Your task to perform on an android device: Clear the shopping cart on target.com. Search for usb-c to usb-b on target.com, select the first entry, add it to the cart, then select checkout. Image 0: 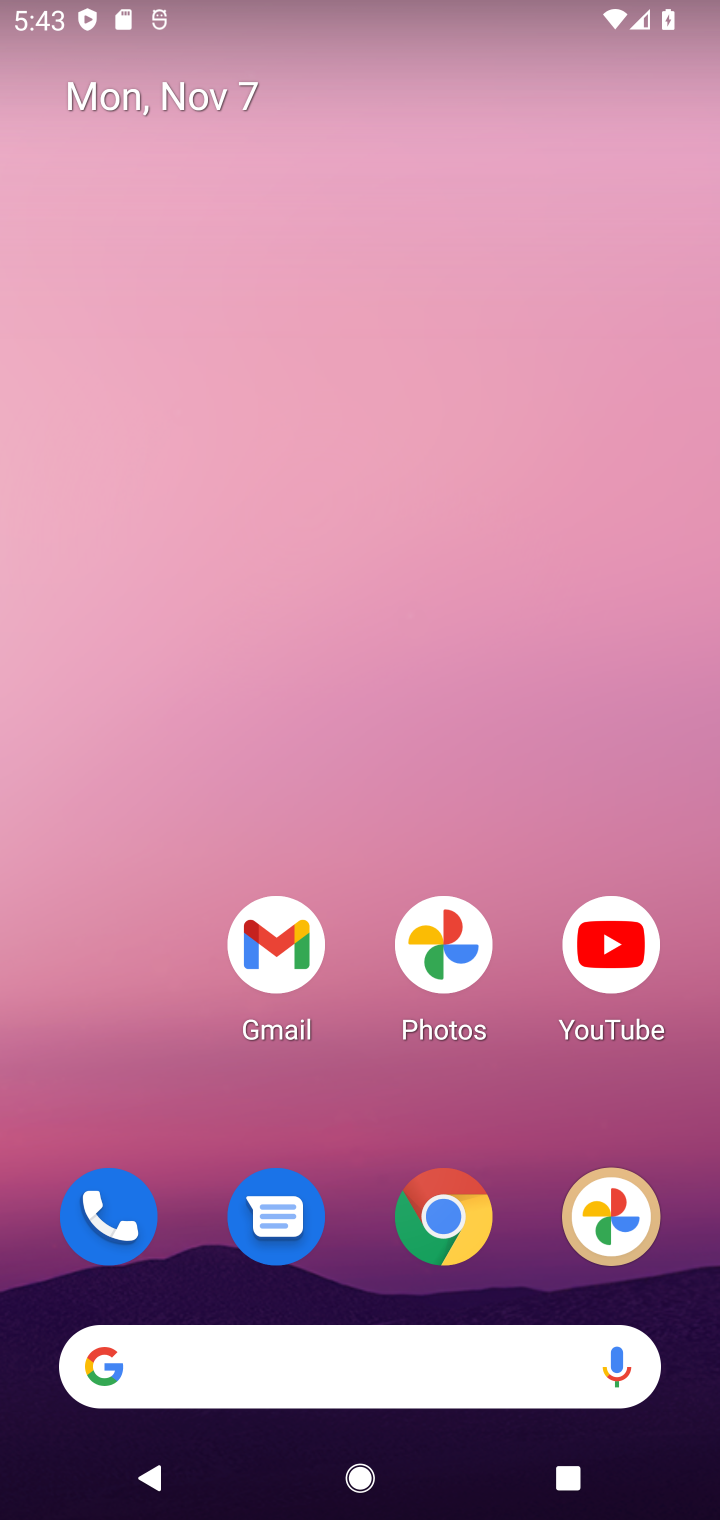
Step 0: drag from (345, 826) to (326, 28)
Your task to perform on an android device: Clear the shopping cart on target.com. Search for usb-c to usb-b on target.com, select the first entry, add it to the cart, then select checkout. Image 1: 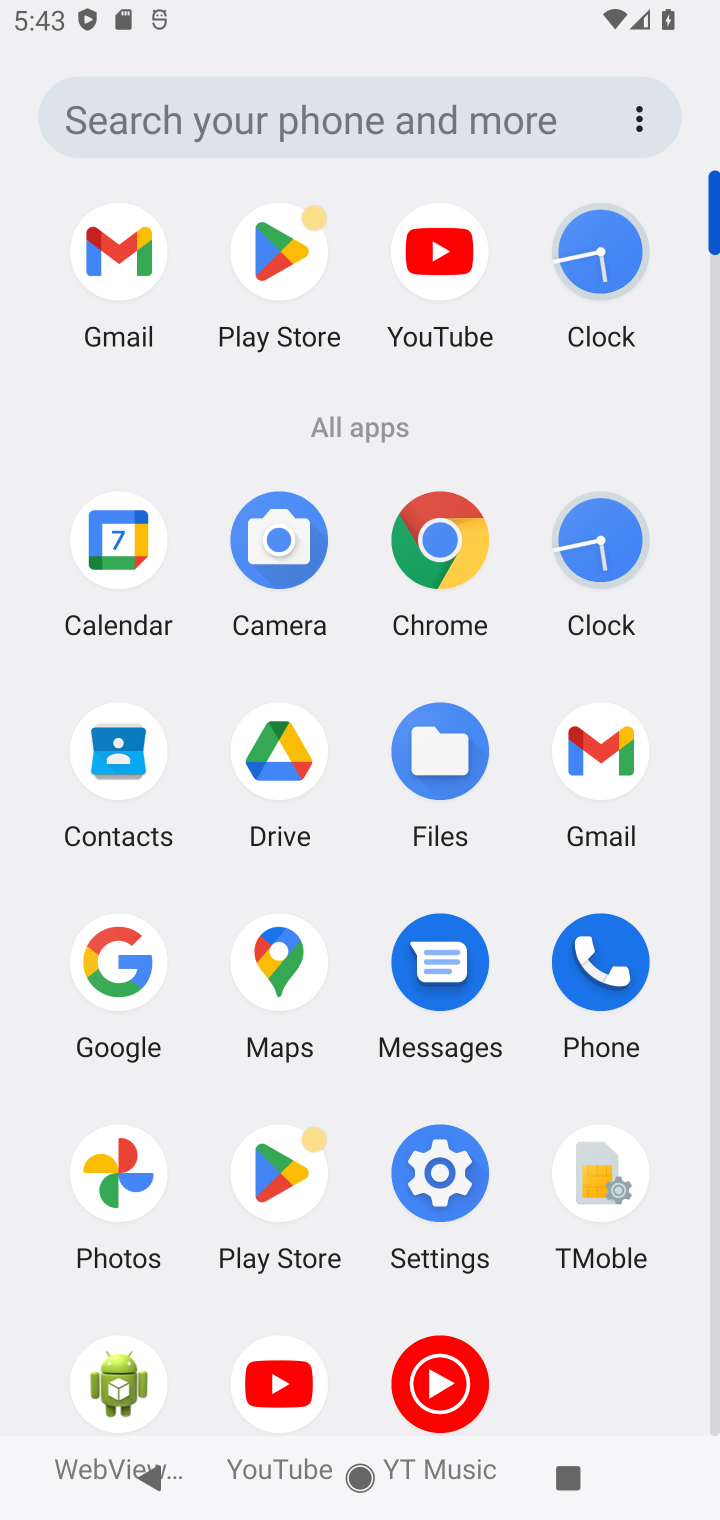
Step 1: click (439, 536)
Your task to perform on an android device: Clear the shopping cart on target.com. Search for usb-c to usb-b on target.com, select the first entry, add it to the cart, then select checkout. Image 2: 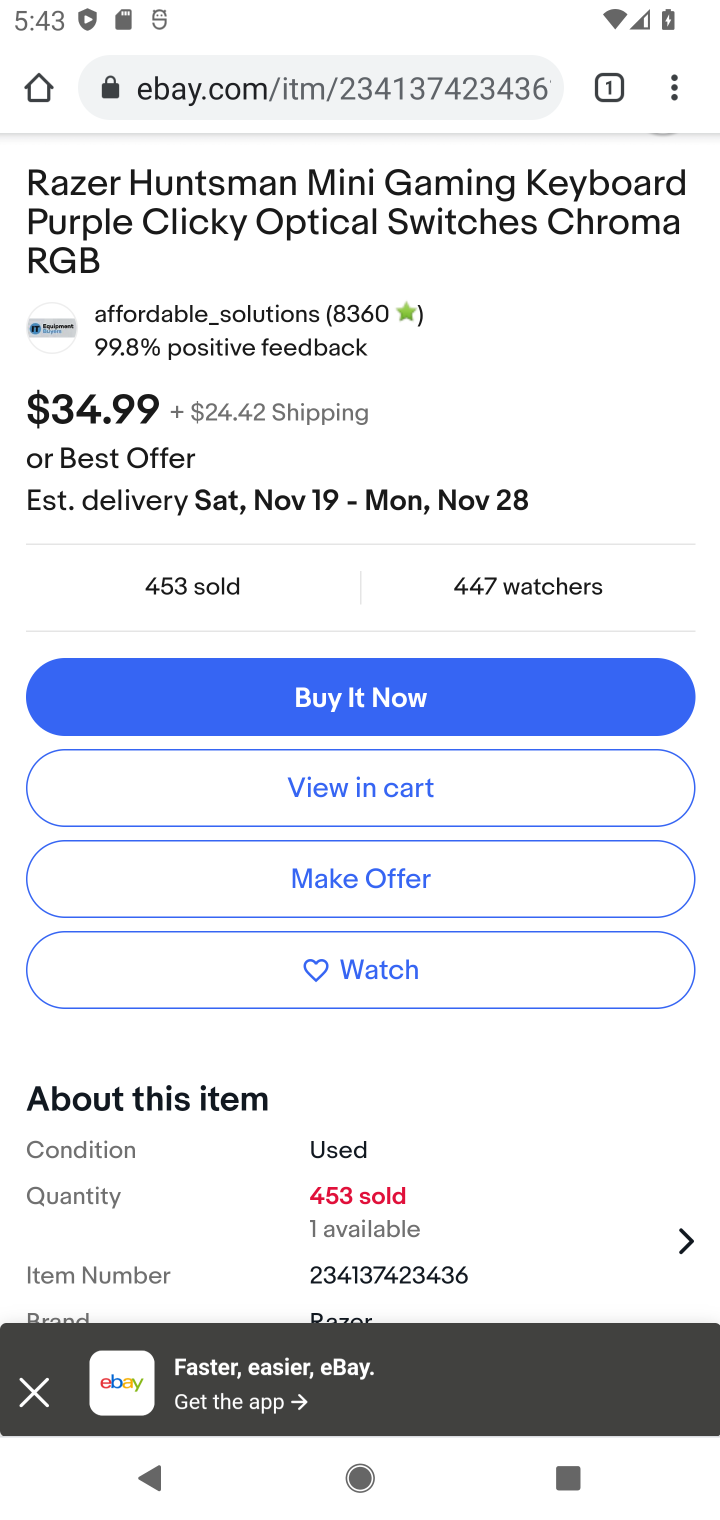
Step 2: click (358, 74)
Your task to perform on an android device: Clear the shopping cart on target.com. Search for usb-c to usb-b on target.com, select the first entry, add it to the cart, then select checkout. Image 3: 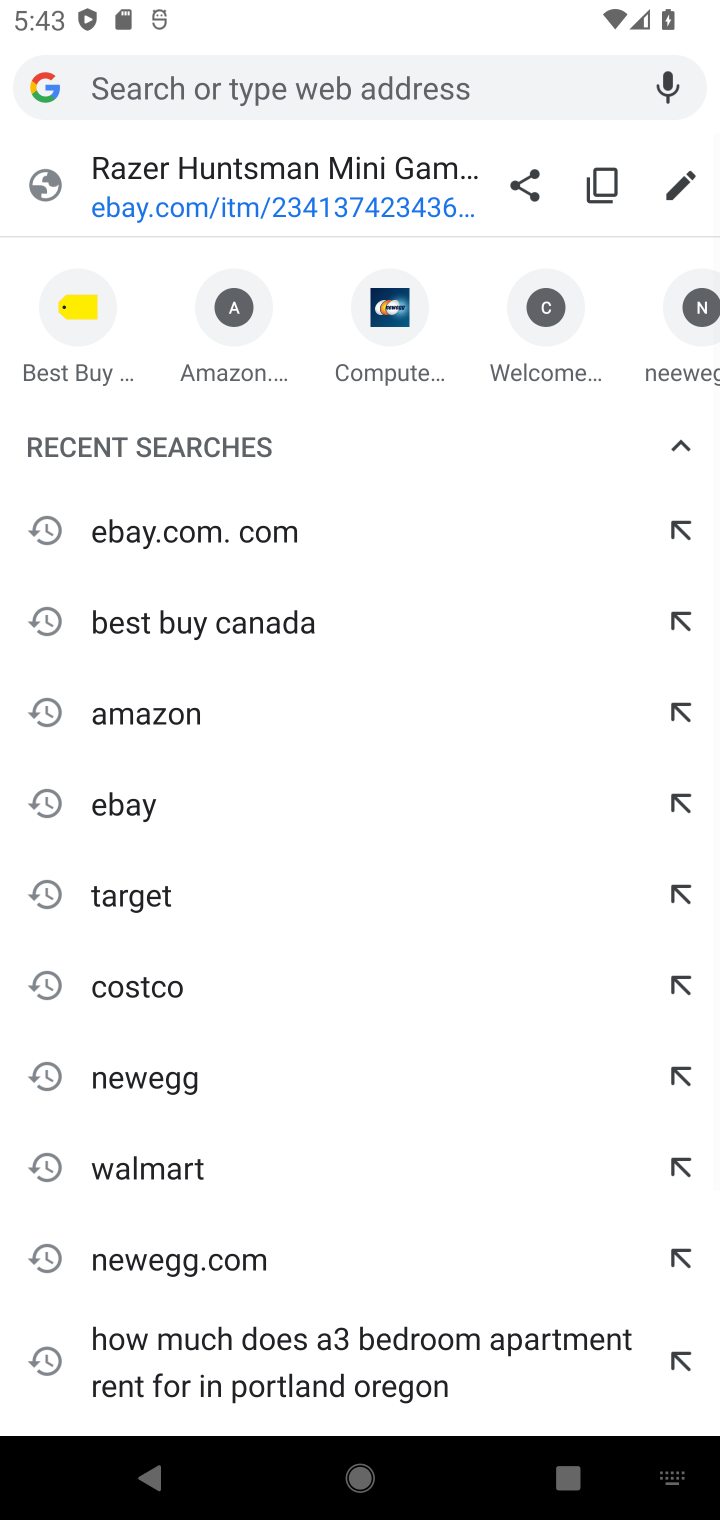
Step 3: type "target.com"
Your task to perform on an android device: Clear the shopping cart on target.com. Search for usb-c to usb-b on target.com, select the first entry, add it to the cart, then select checkout. Image 4: 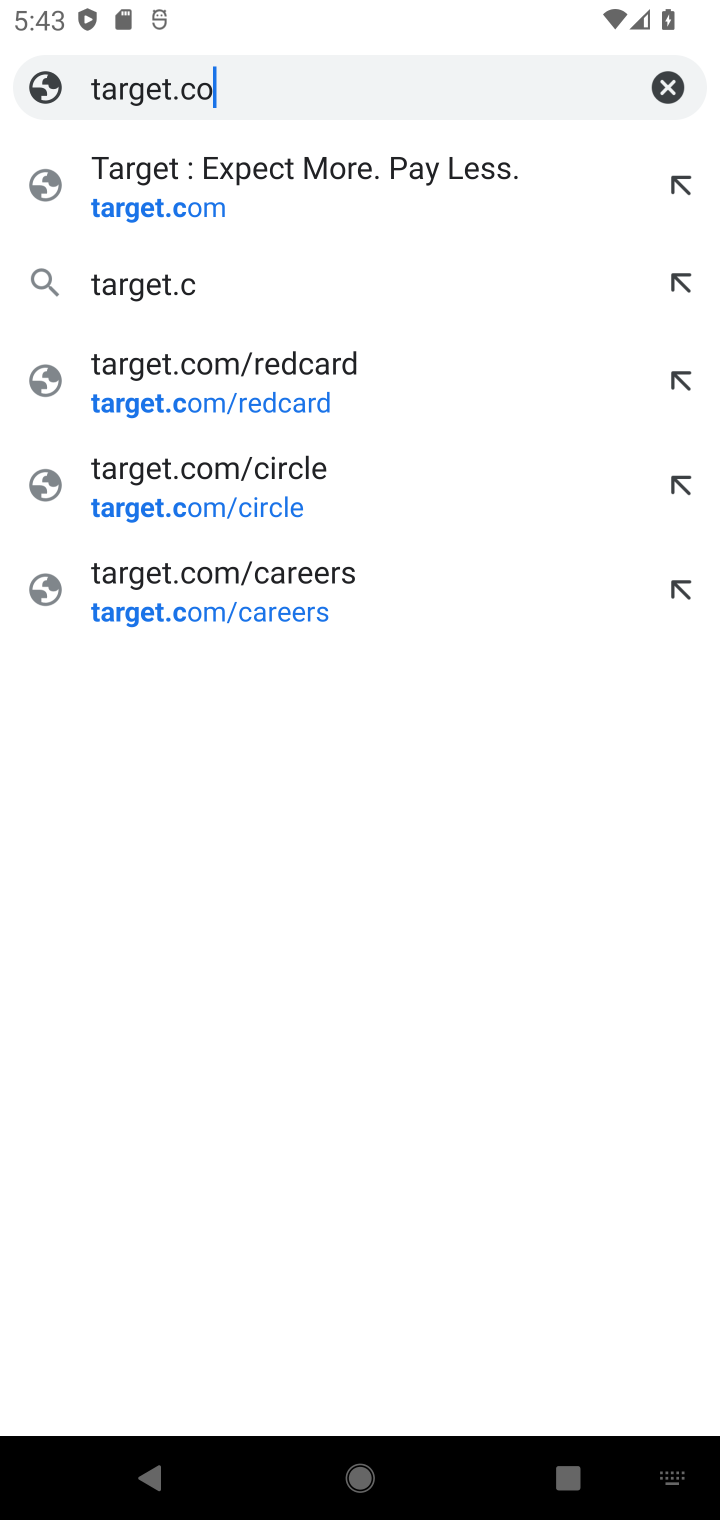
Step 4: press enter
Your task to perform on an android device: Clear the shopping cart on target.com. Search for usb-c to usb-b on target.com, select the first entry, add it to the cart, then select checkout. Image 5: 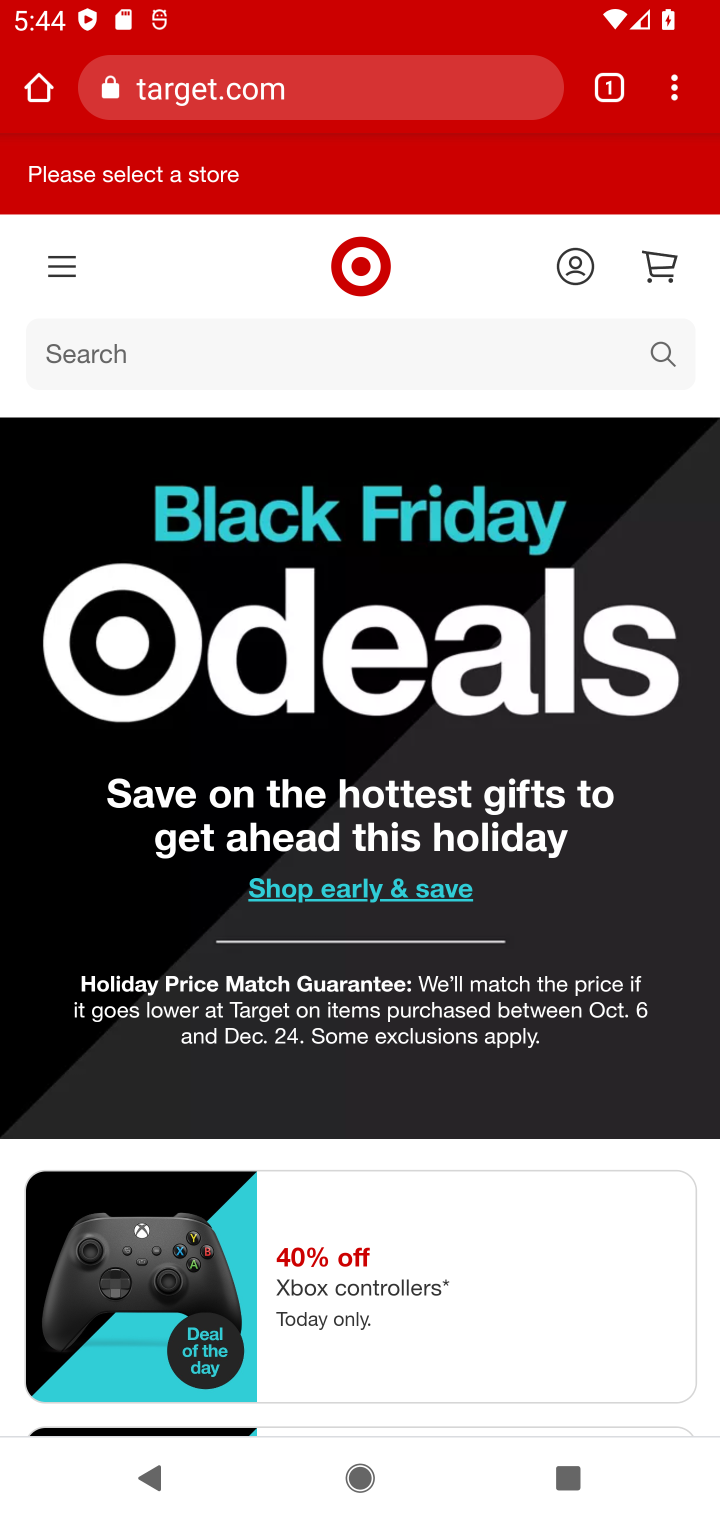
Step 5: click (213, 350)
Your task to perform on an android device: Clear the shopping cart on target.com. Search for usb-c to usb-b on target.com, select the first entry, add it to the cart, then select checkout. Image 6: 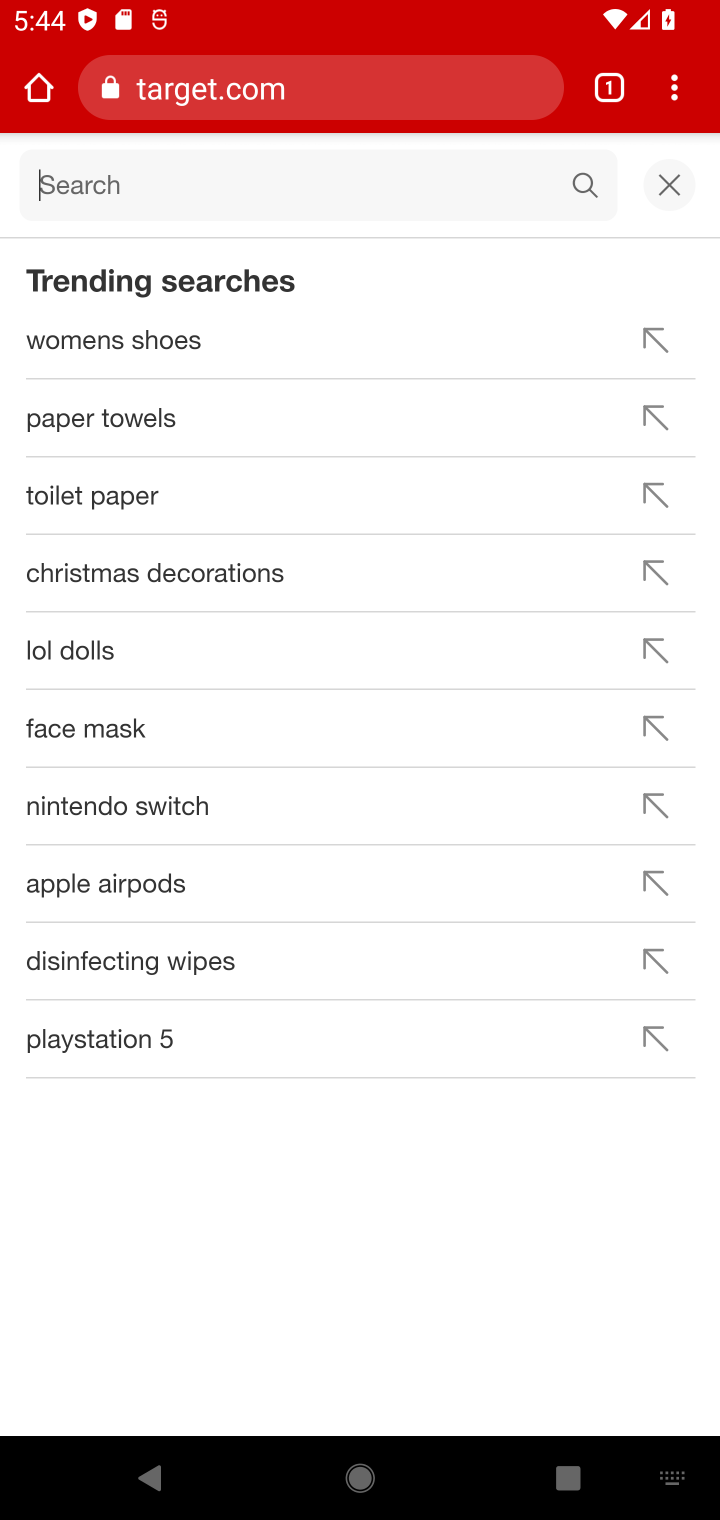
Step 6: click (664, 172)
Your task to perform on an android device: Clear the shopping cart on target.com. Search for usb-c to usb-b on target.com, select the first entry, add it to the cart, then select checkout. Image 7: 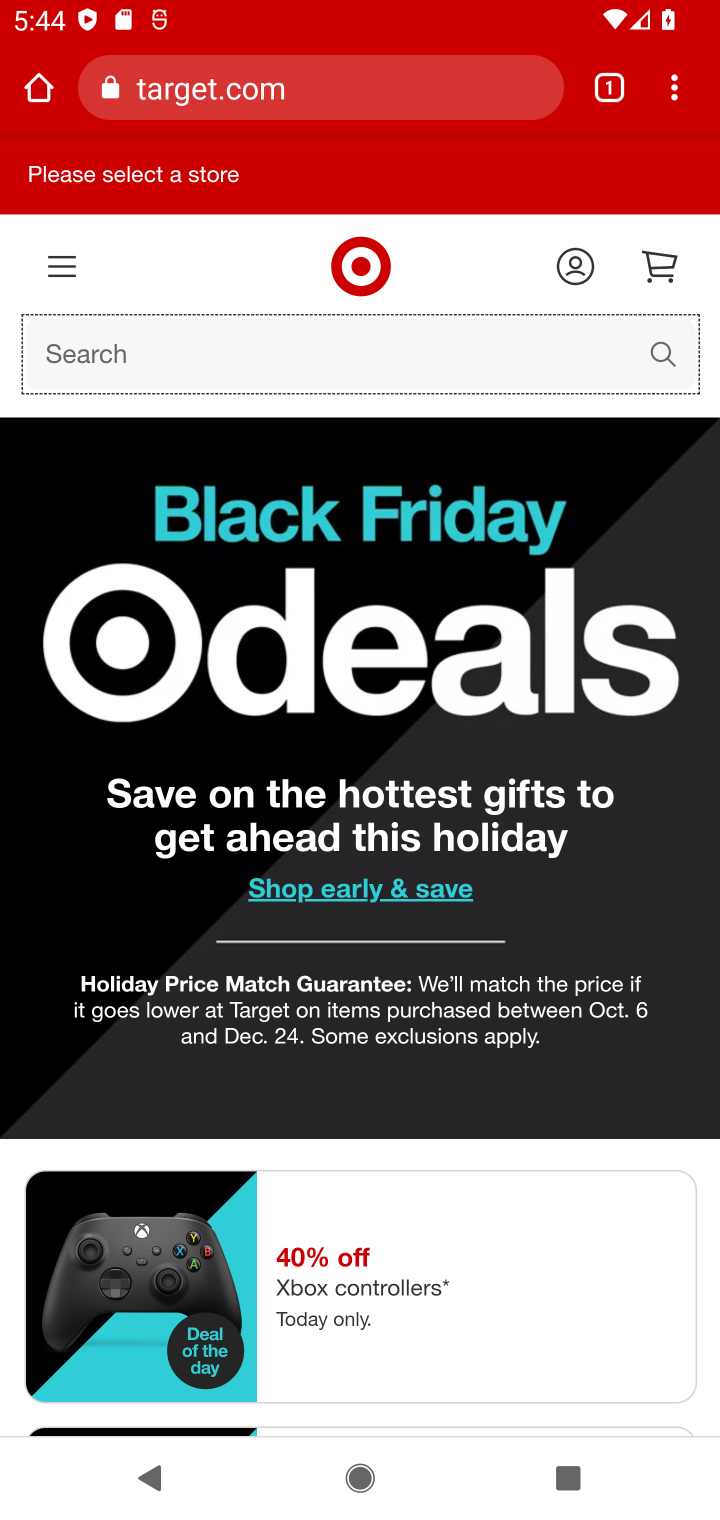
Step 7: click (664, 172)
Your task to perform on an android device: Clear the shopping cart on target.com. Search for usb-c to usb-b on target.com, select the first entry, add it to the cart, then select checkout. Image 8: 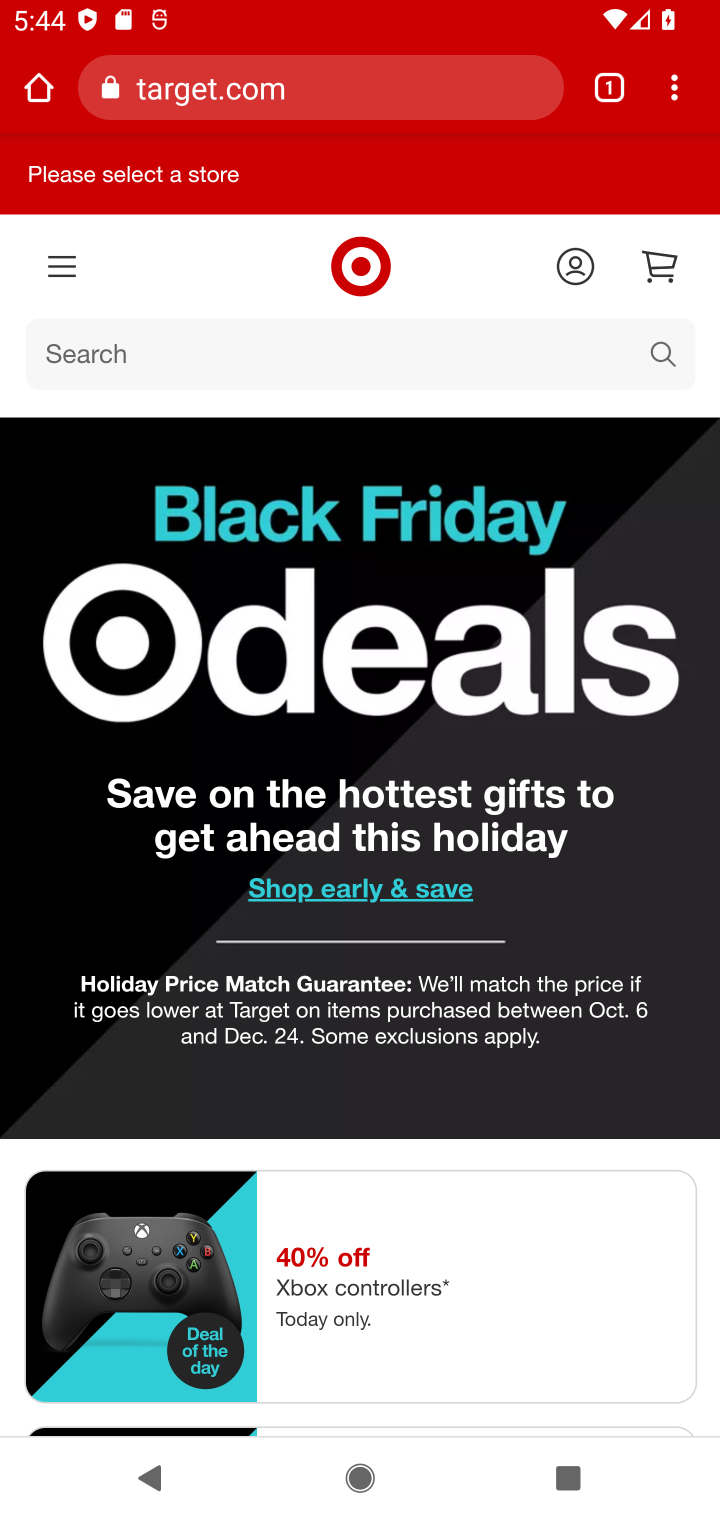
Step 8: click (676, 254)
Your task to perform on an android device: Clear the shopping cart on target.com. Search for usb-c to usb-b on target.com, select the first entry, add it to the cart, then select checkout. Image 9: 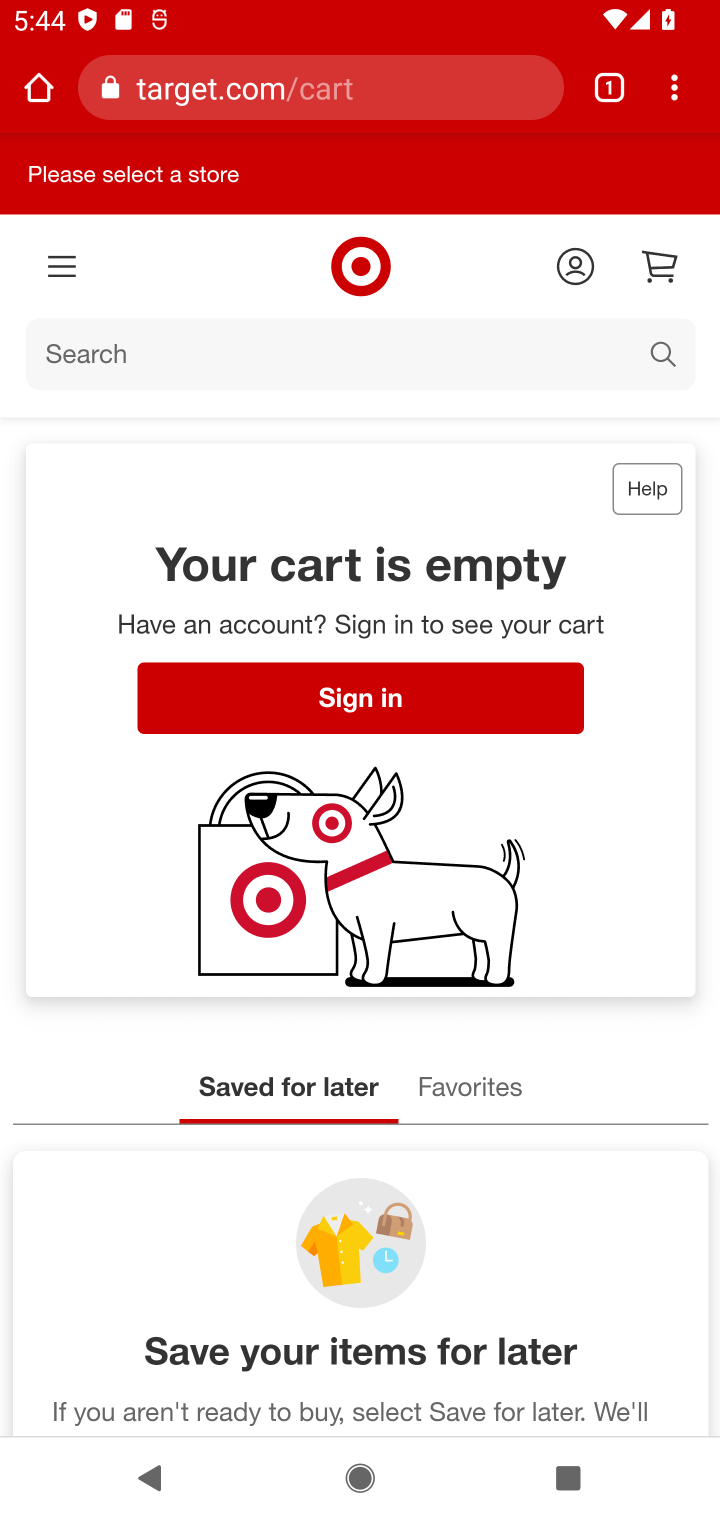
Step 9: click (432, 357)
Your task to perform on an android device: Clear the shopping cart on target.com. Search for usb-c to usb-b on target.com, select the first entry, add it to the cart, then select checkout. Image 10: 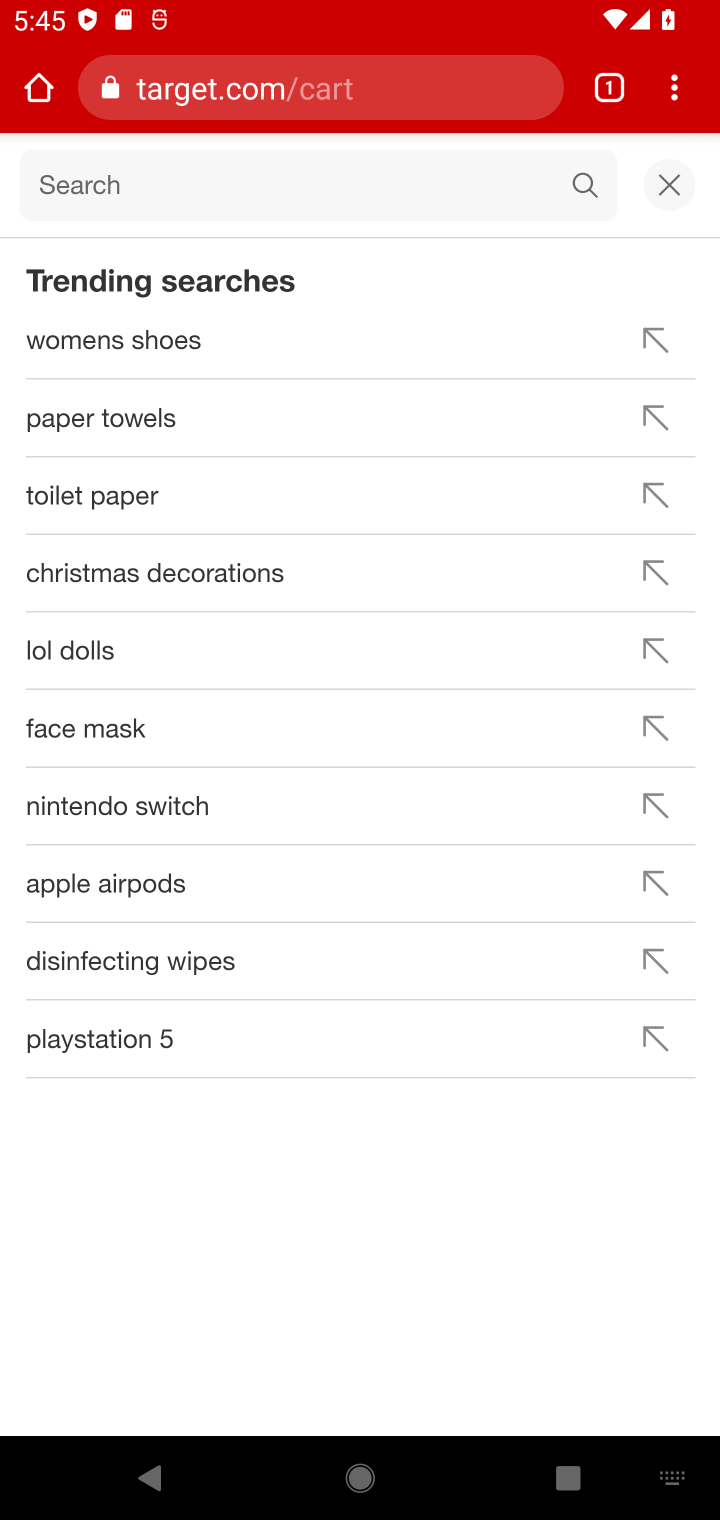
Step 10: type "usb-c to usb-b'"
Your task to perform on an android device: Clear the shopping cart on target.com. Search for usb-c to usb-b on target.com, select the first entry, add it to the cart, then select checkout. Image 11: 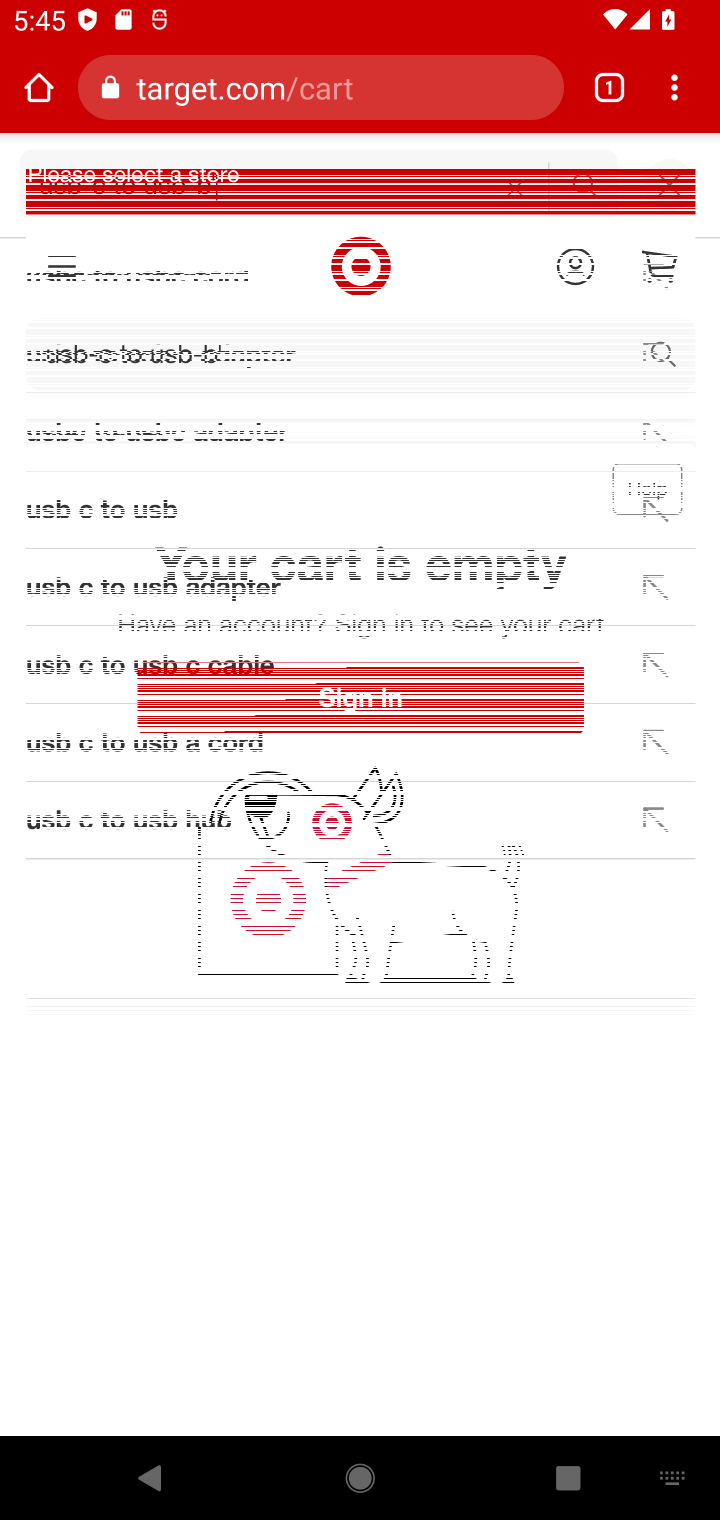
Step 11: press enter
Your task to perform on an android device: Clear the shopping cart on target.com. Search for usb-c to usb-b on target.com, select the first entry, add it to the cart, then select checkout. Image 12: 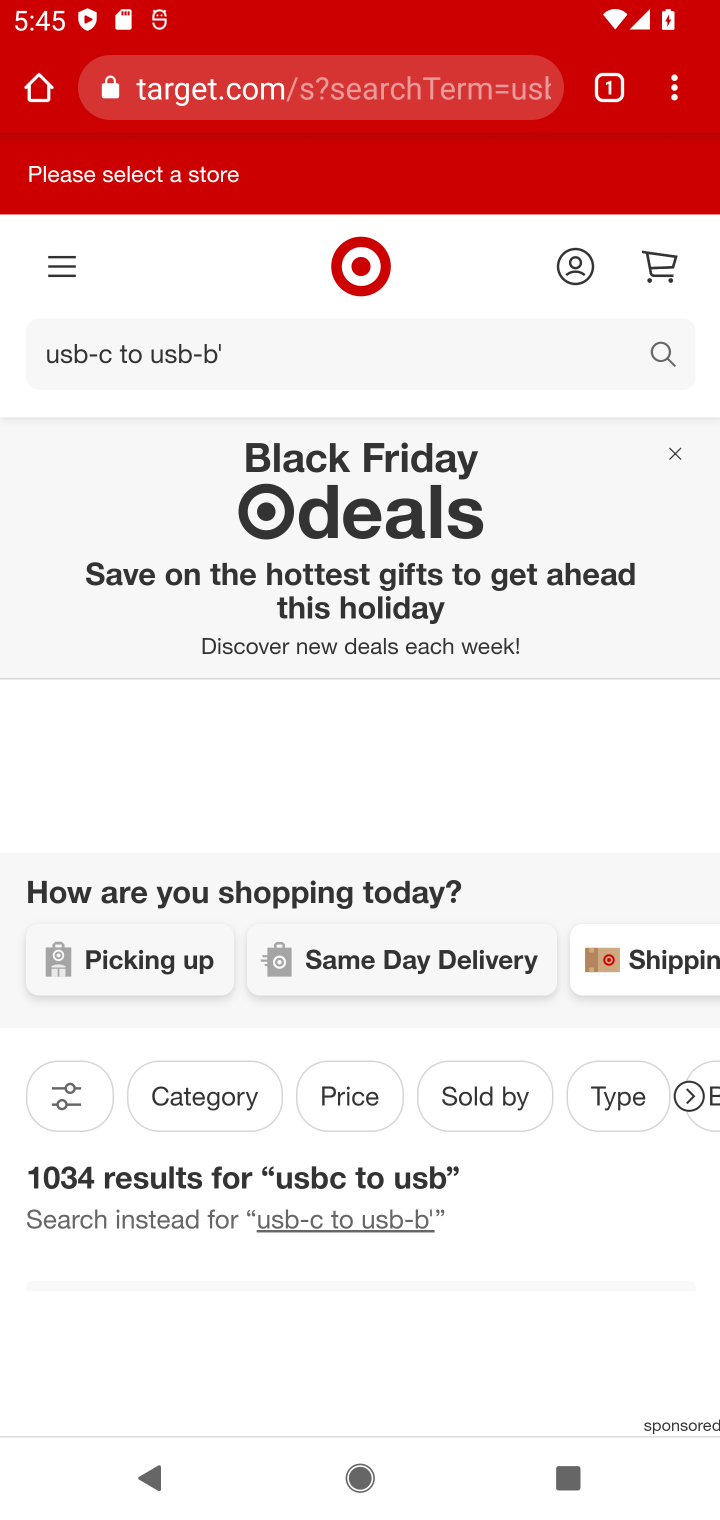
Step 12: drag from (83, 330) to (370, 357)
Your task to perform on an android device: Clear the shopping cart on target.com. Search for usb-c to usb-b on target.com, select the first entry, add it to the cart, then select checkout. Image 13: 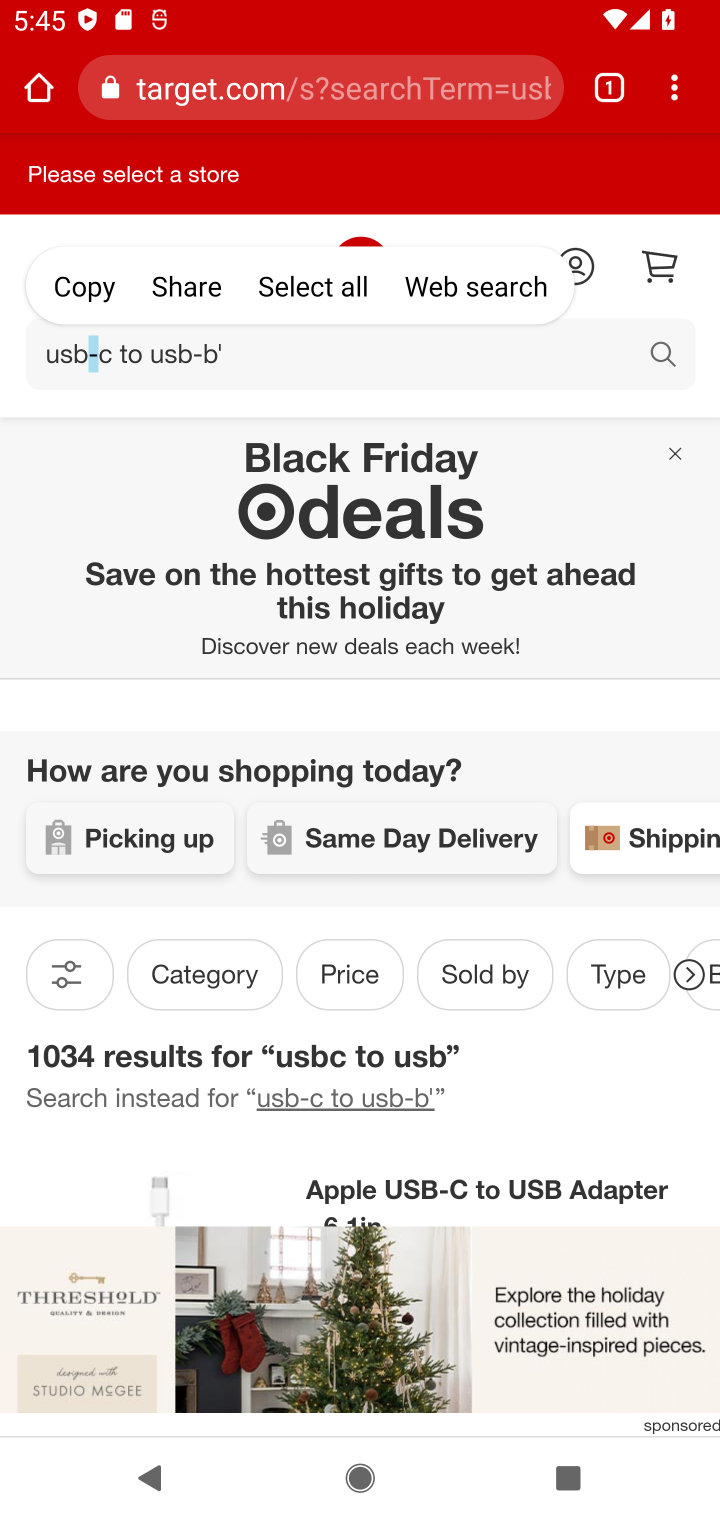
Step 13: click (294, 351)
Your task to perform on an android device: Clear the shopping cart on target.com. Search for usb-c to usb-b on target.com, select the first entry, add it to the cart, then select checkout. Image 14: 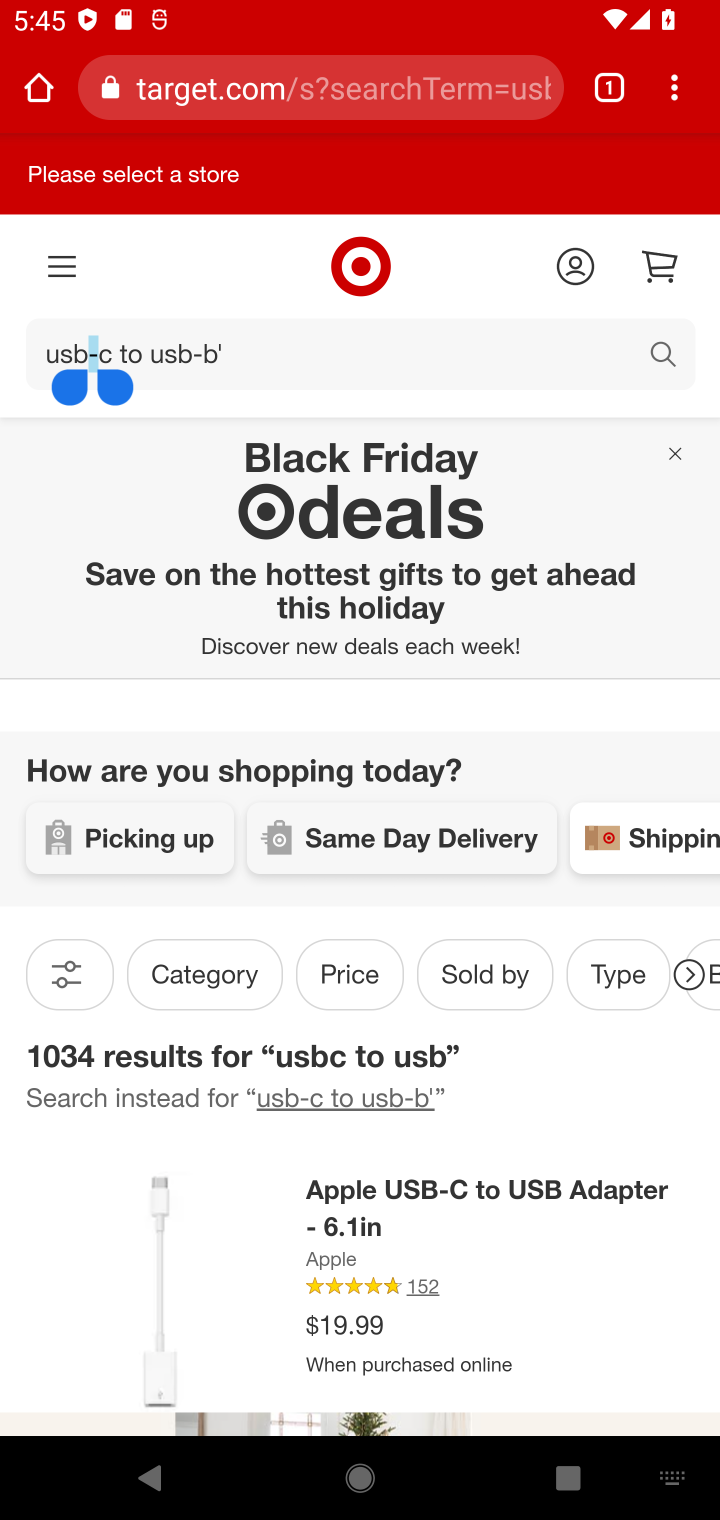
Step 14: click (294, 351)
Your task to perform on an android device: Clear the shopping cart on target.com. Search for usb-c to usb-b on target.com, select the first entry, add it to the cart, then select checkout. Image 15: 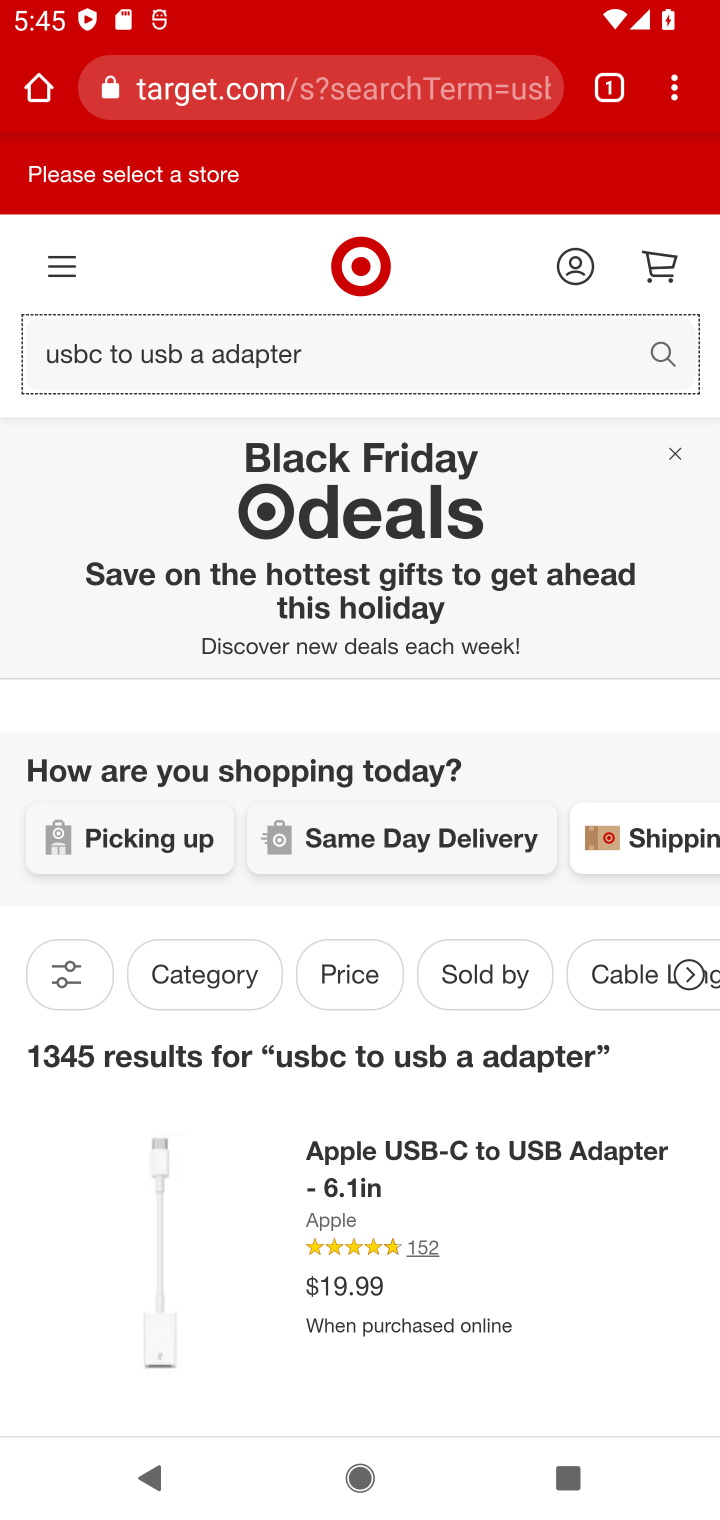
Step 15: click (365, 349)
Your task to perform on an android device: Clear the shopping cart on target.com. Search for usb-c to usb-b on target.com, select the first entry, add it to the cart, then select checkout. Image 16: 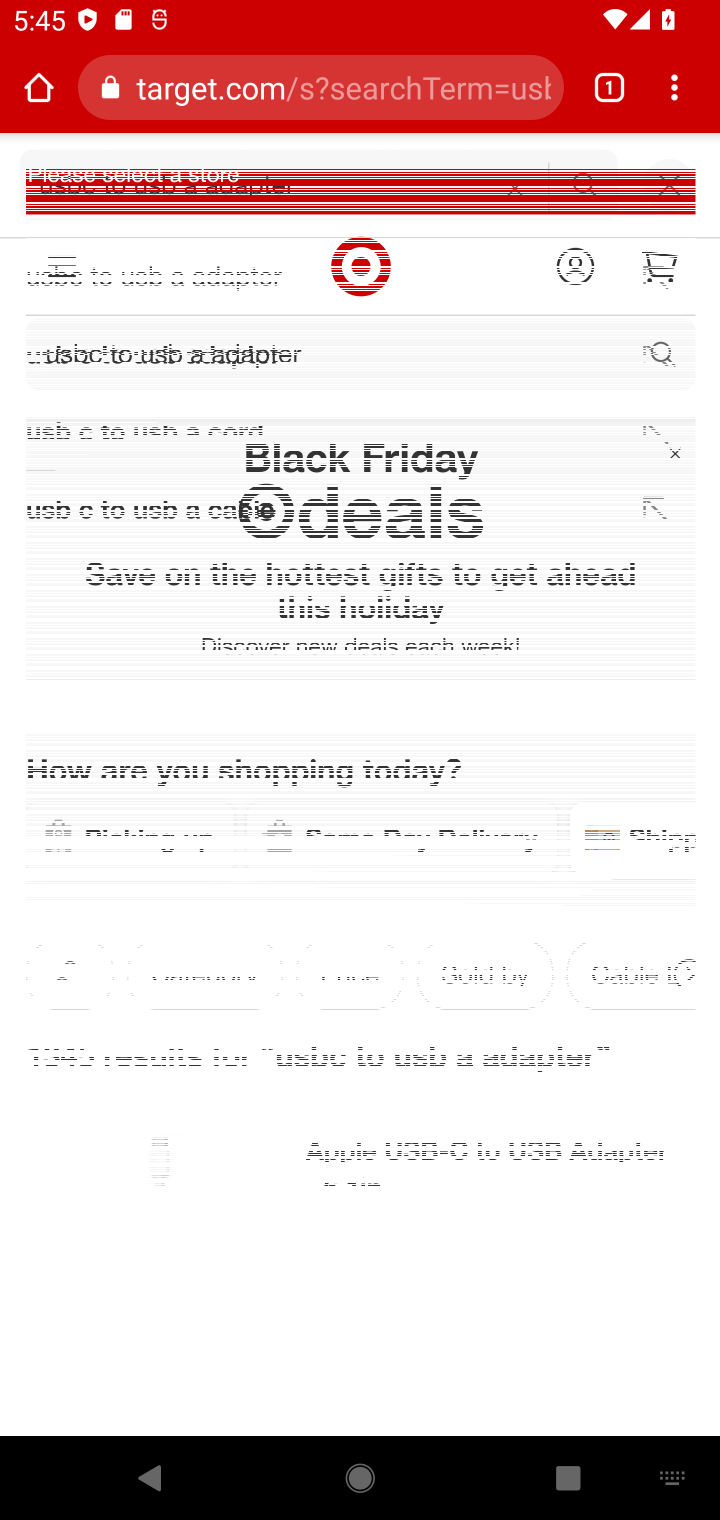
Step 16: click (496, 192)
Your task to perform on an android device: Clear the shopping cart on target.com. Search for usb-c to usb-b on target.com, select the first entry, add it to the cart, then select checkout. Image 17: 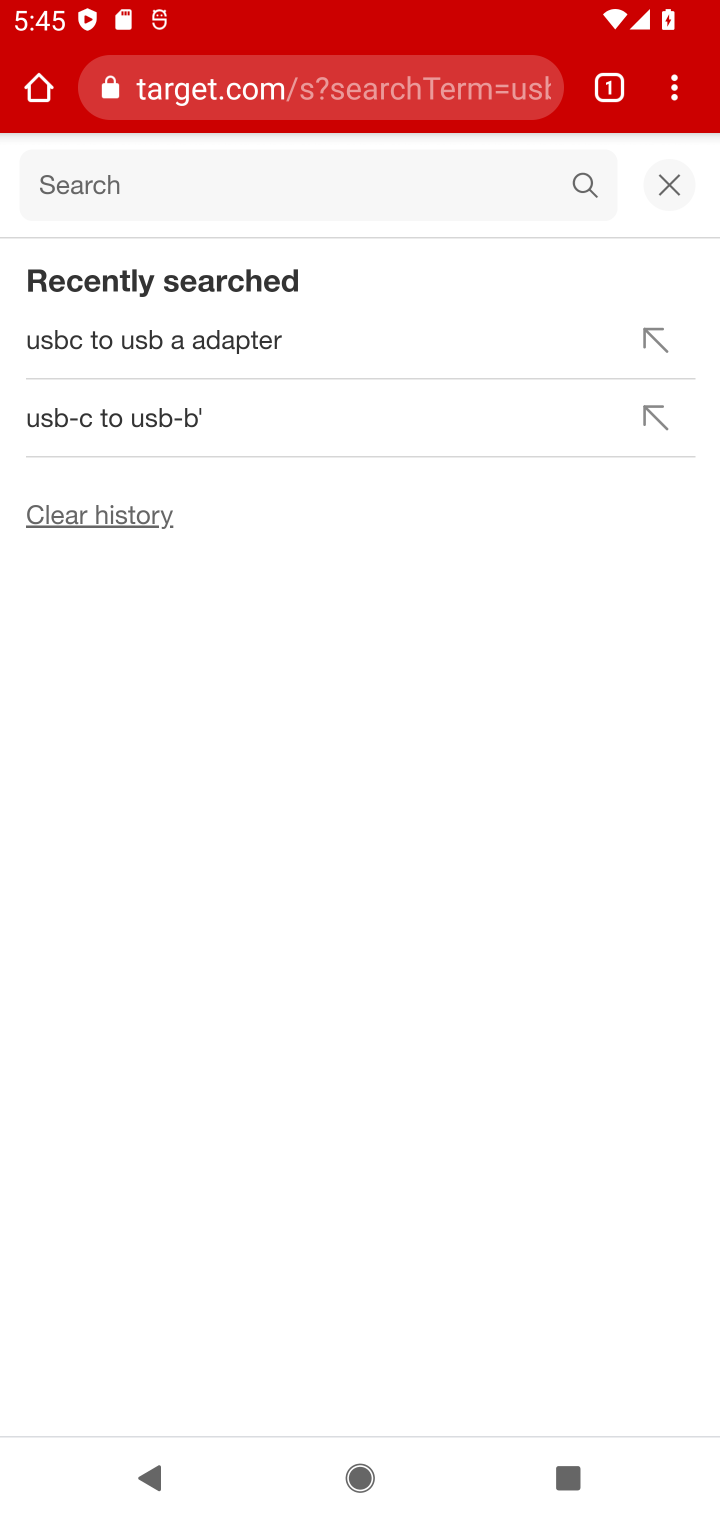
Step 17: type "usb-c to usb-b"
Your task to perform on an android device: Clear the shopping cart on target.com. Search for usb-c to usb-b on target.com, select the first entry, add it to the cart, then select checkout. Image 18: 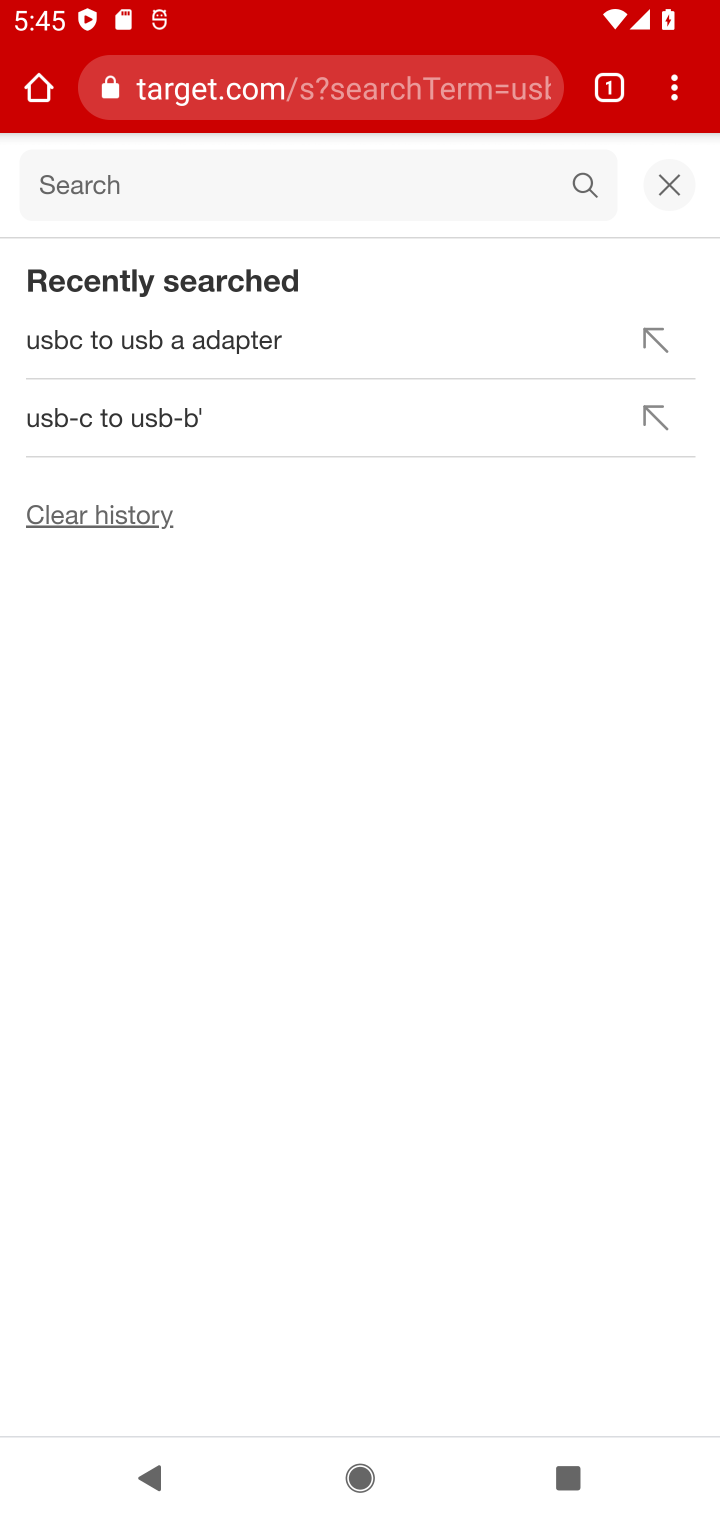
Step 18: press enter
Your task to perform on an android device: Clear the shopping cart on target.com. Search for usb-c to usb-b on target.com, select the first entry, add it to the cart, then select checkout. Image 19: 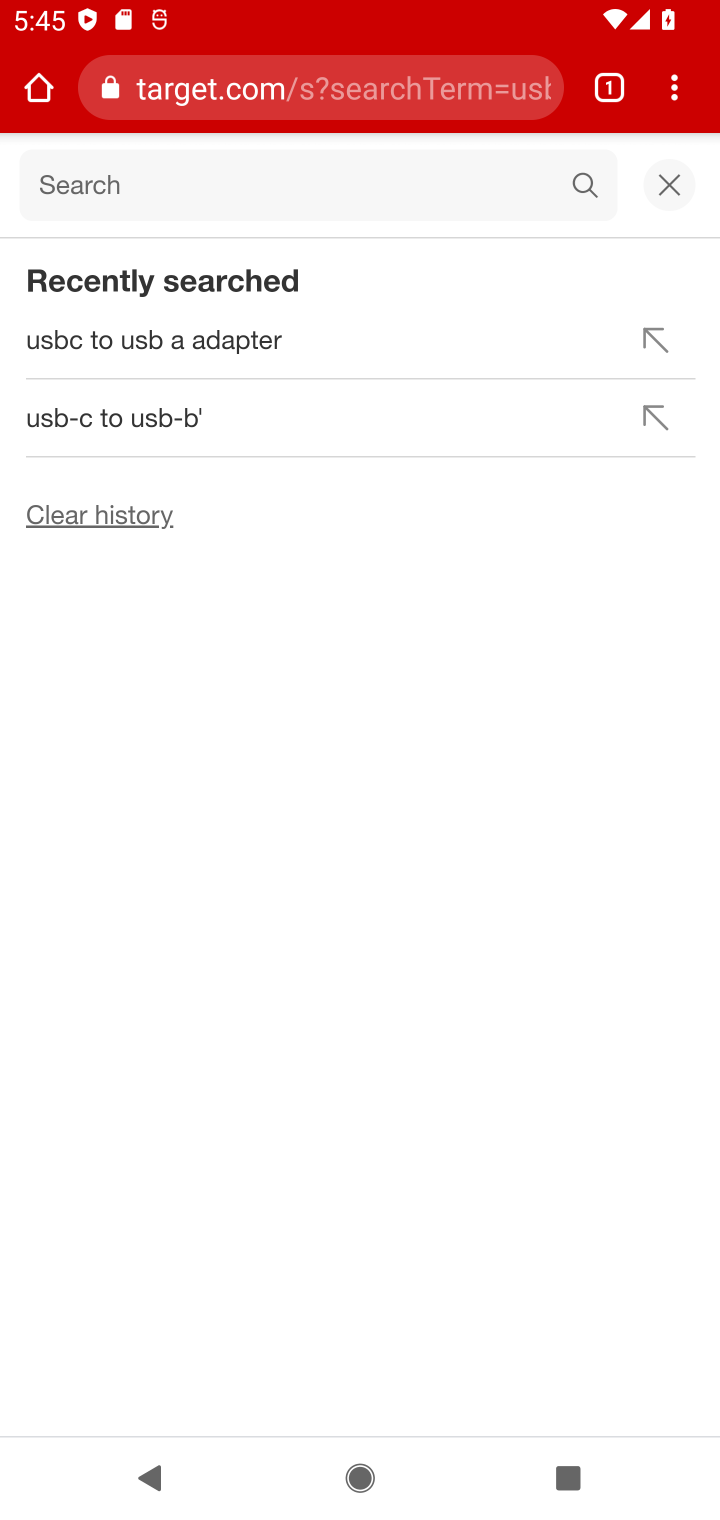
Step 19: click (262, 186)
Your task to perform on an android device: Clear the shopping cart on target.com. Search for usb-c to usb-b on target.com, select the first entry, add it to the cart, then select checkout. Image 20: 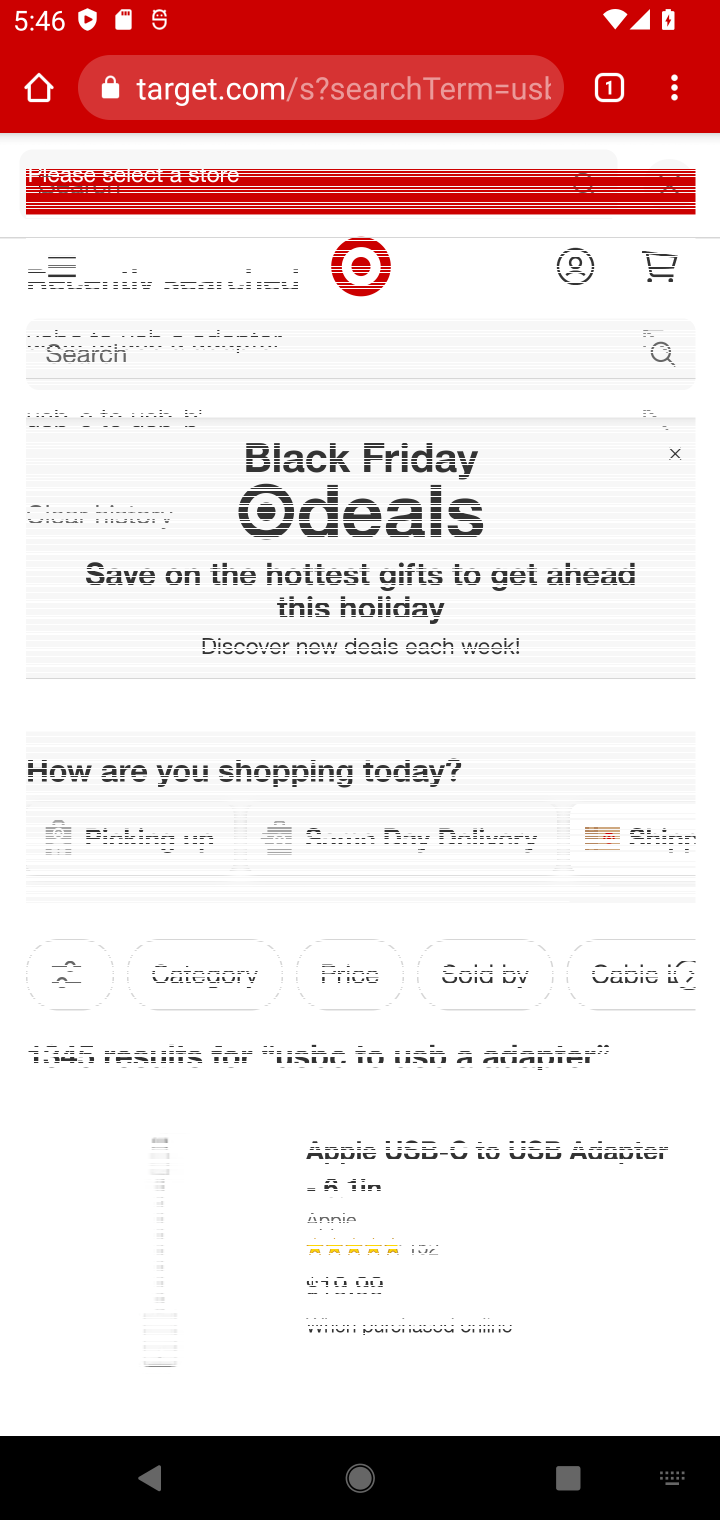
Step 20: type "usb-c to usb-b"
Your task to perform on an android device: Clear the shopping cart on target.com. Search for usb-c to usb-b on target.com, select the first entry, add it to the cart, then select checkout. Image 21: 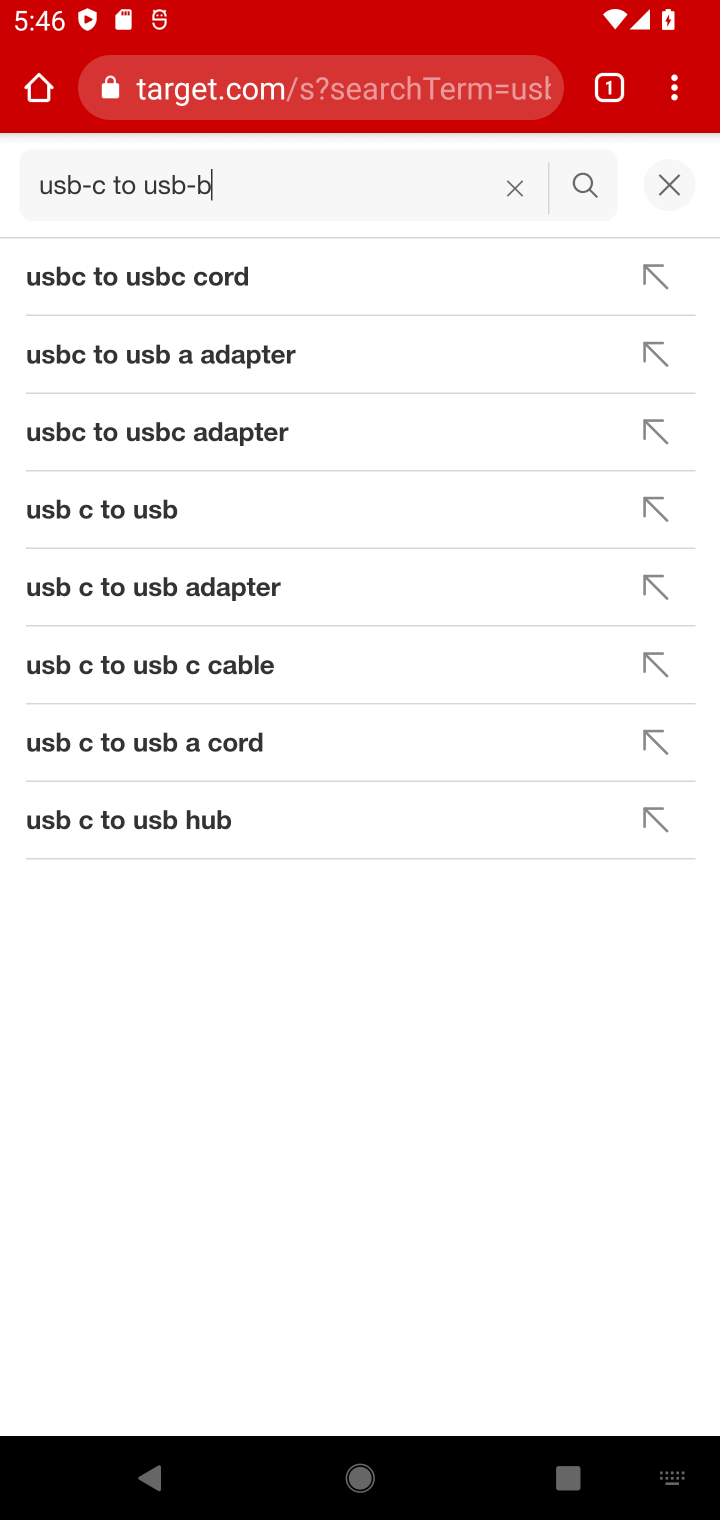
Step 21: press enter
Your task to perform on an android device: Clear the shopping cart on target.com. Search for usb-c to usb-b on target.com, select the first entry, add it to the cart, then select checkout. Image 22: 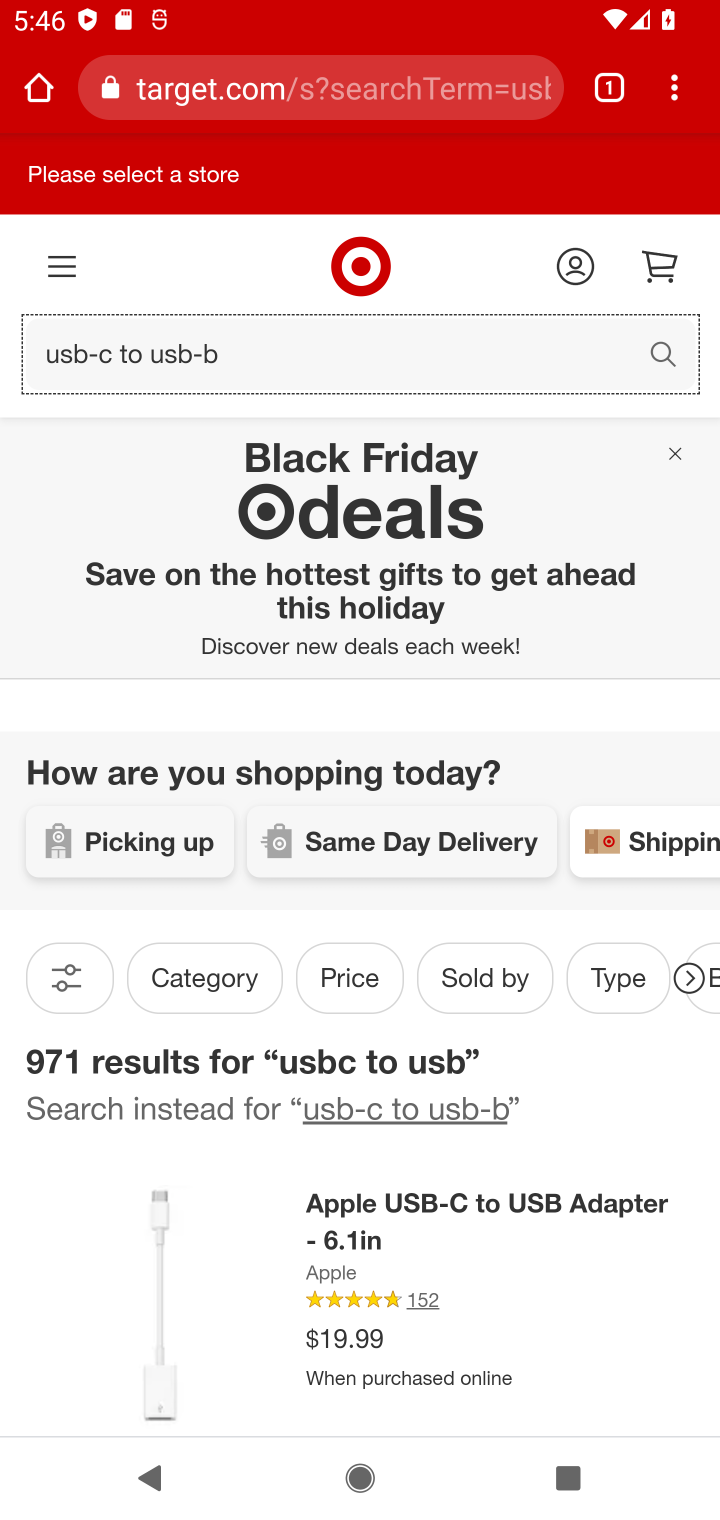
Step 22: drag from (523, 1240) to (460, 634)
Your task to perform on an android device: Clear the shopping cart on target.com. Search for usb-c to usb-b on target.com, select the first entry, add it to the cart, then select checkout. Image 23: 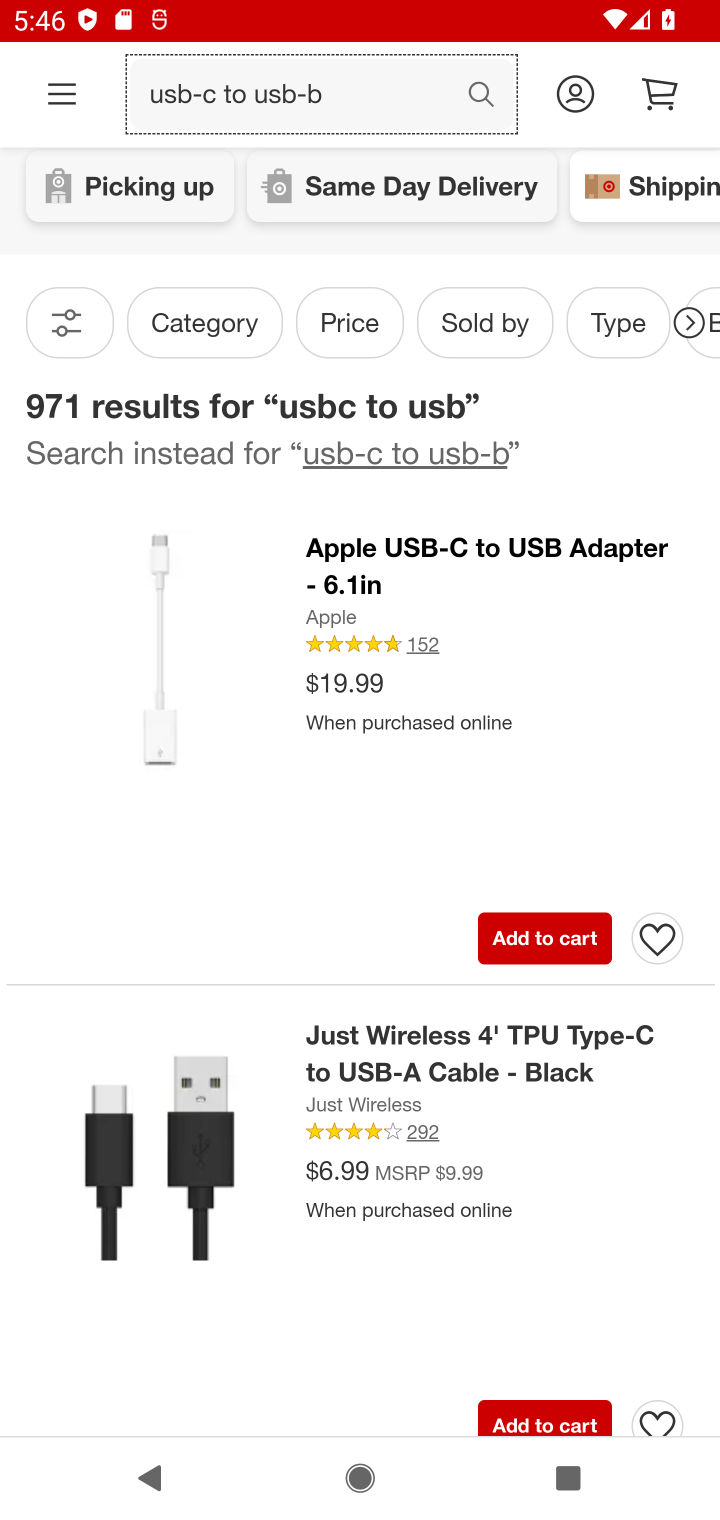
Step 23: drag from (351, 1267) to (350, 603)
Your task to perform on an android device: Clear the shopping cart on target.com. Search for usb-c to usb-b on target.com, select the first entry, add it to the cart, then select checkout. Image 24: 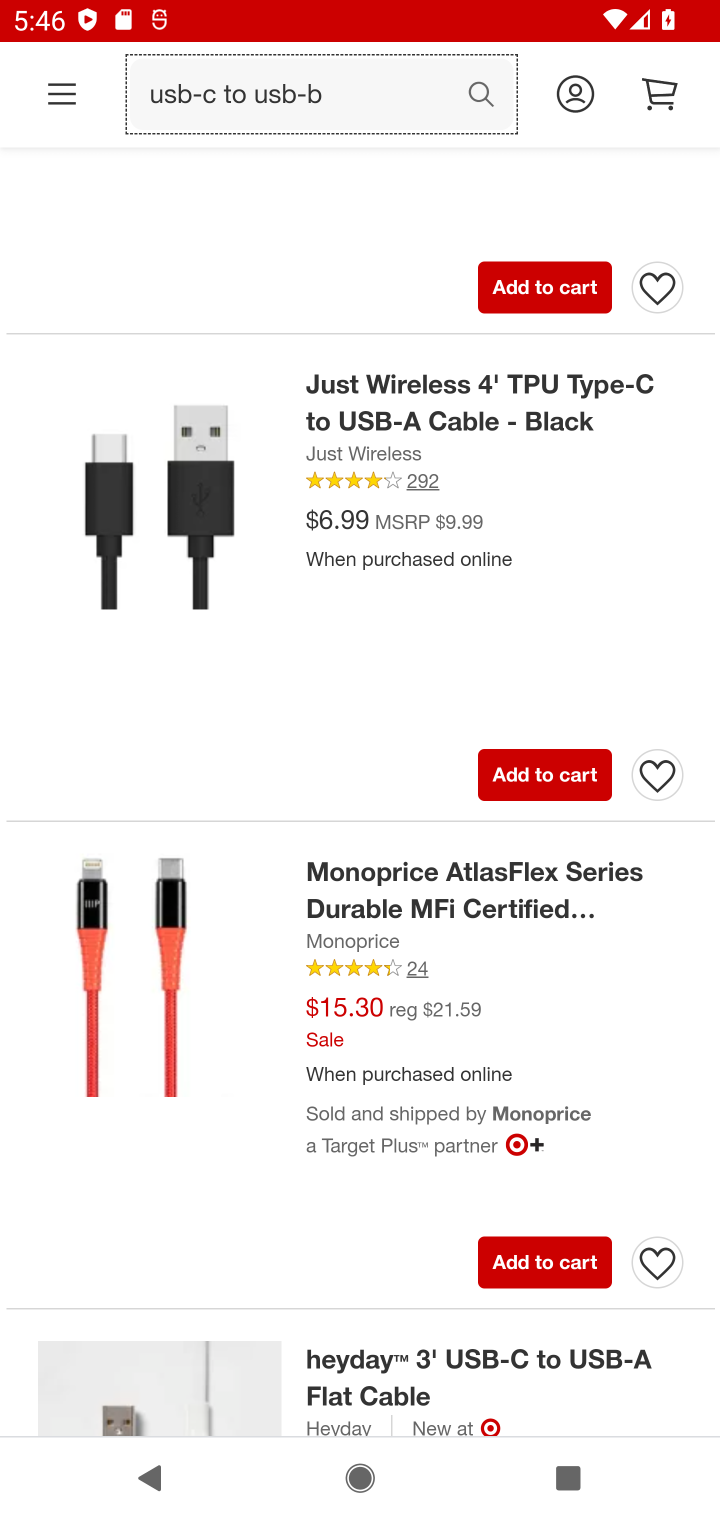
Step 24: drag from (375, 918) to (397, 488)
Your task to perform on an android device: Clear the shopping cart on target.com. Search for usb-c to usb-b on target.com, select the first entry, add it to the cart, then select checkout. Image 25: 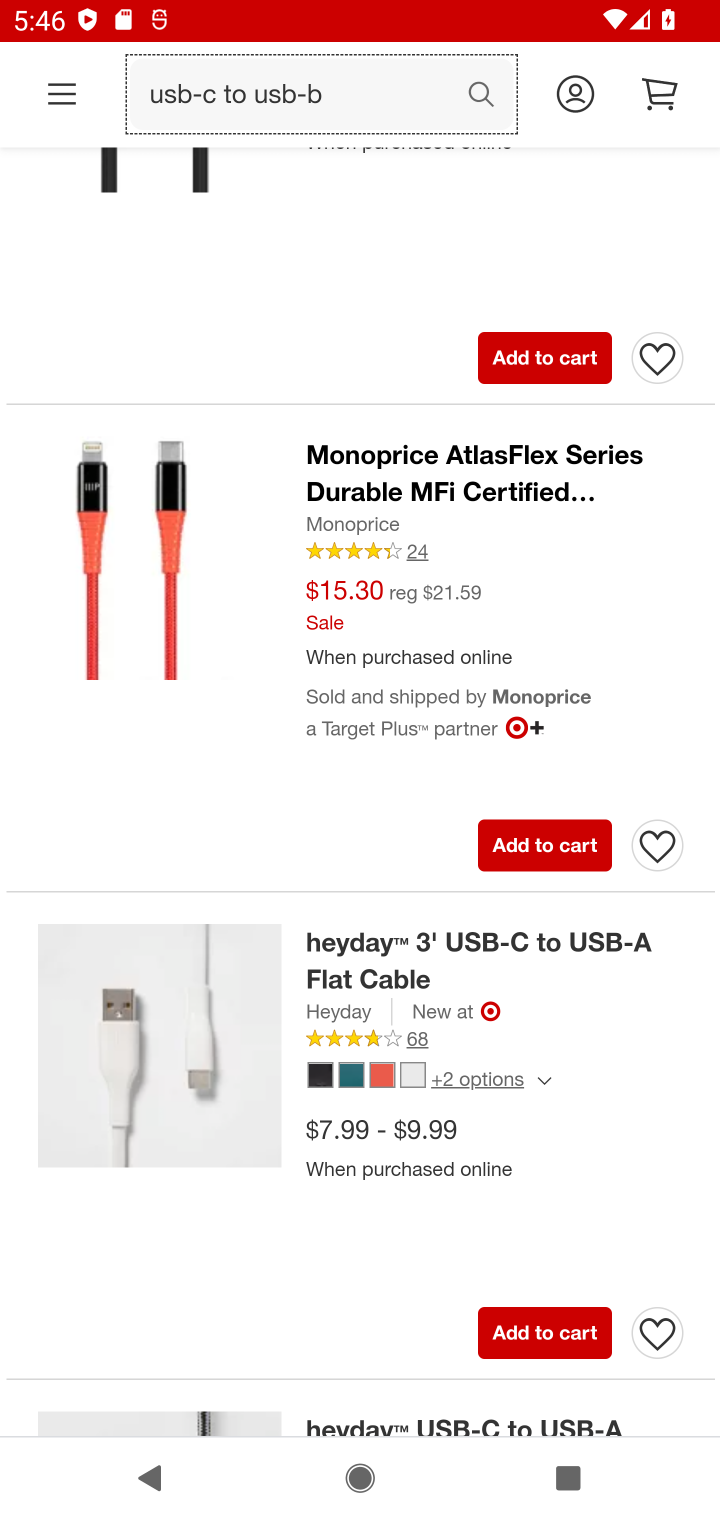
Step 25: drag from (385, 1084) to (383, 251)
Your task to perform on an android device: Clear the shopping cart on target.com. Search for usb-c to usb-b on target.com, select the first entry, add it to the cart, then select checkout. Image 26: 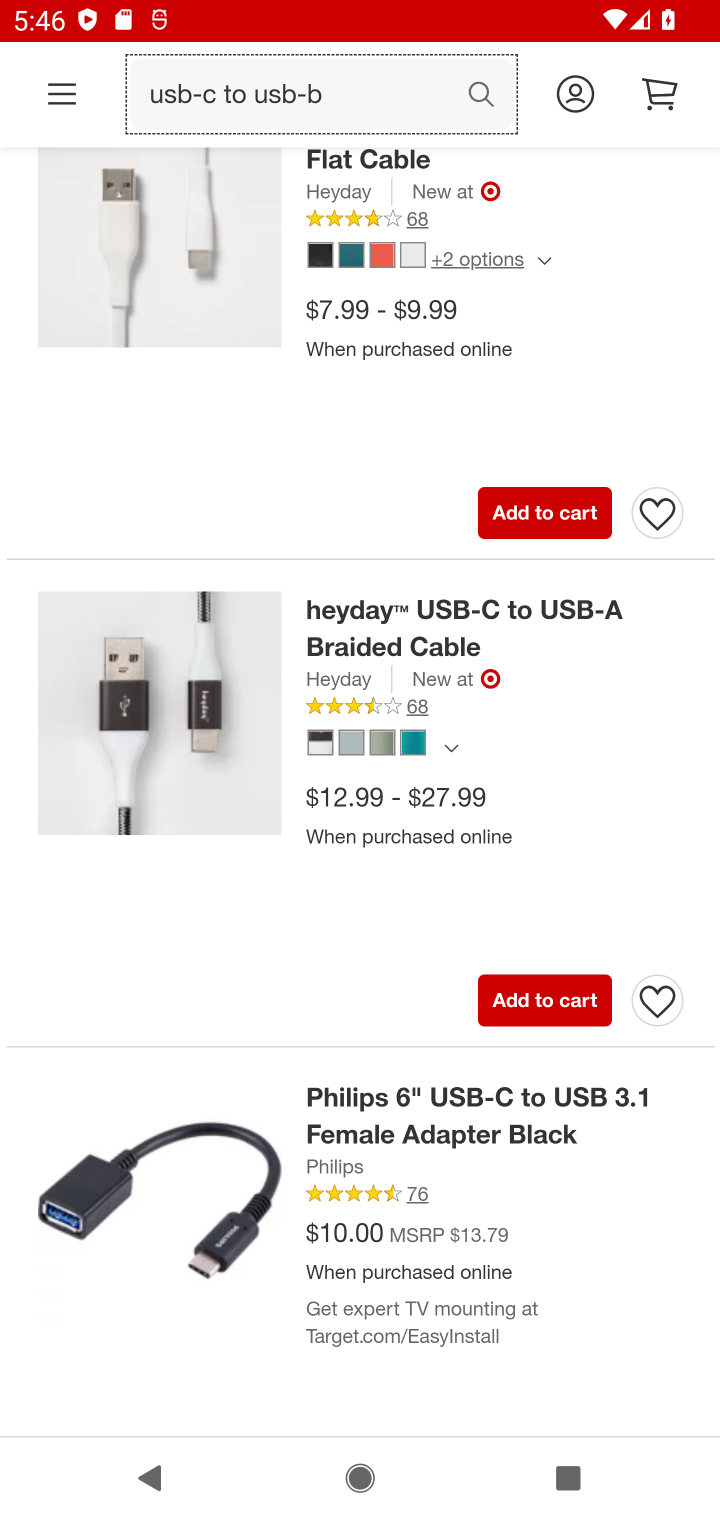
Step 26: drag from (512, 856) to (304, 25)
Your task to perform on an android device: Clear the shopping cart on target.com. Search for usb-c to usb-b on target.com, select the first entry, add it to the cart, then select checkout. Image 27: 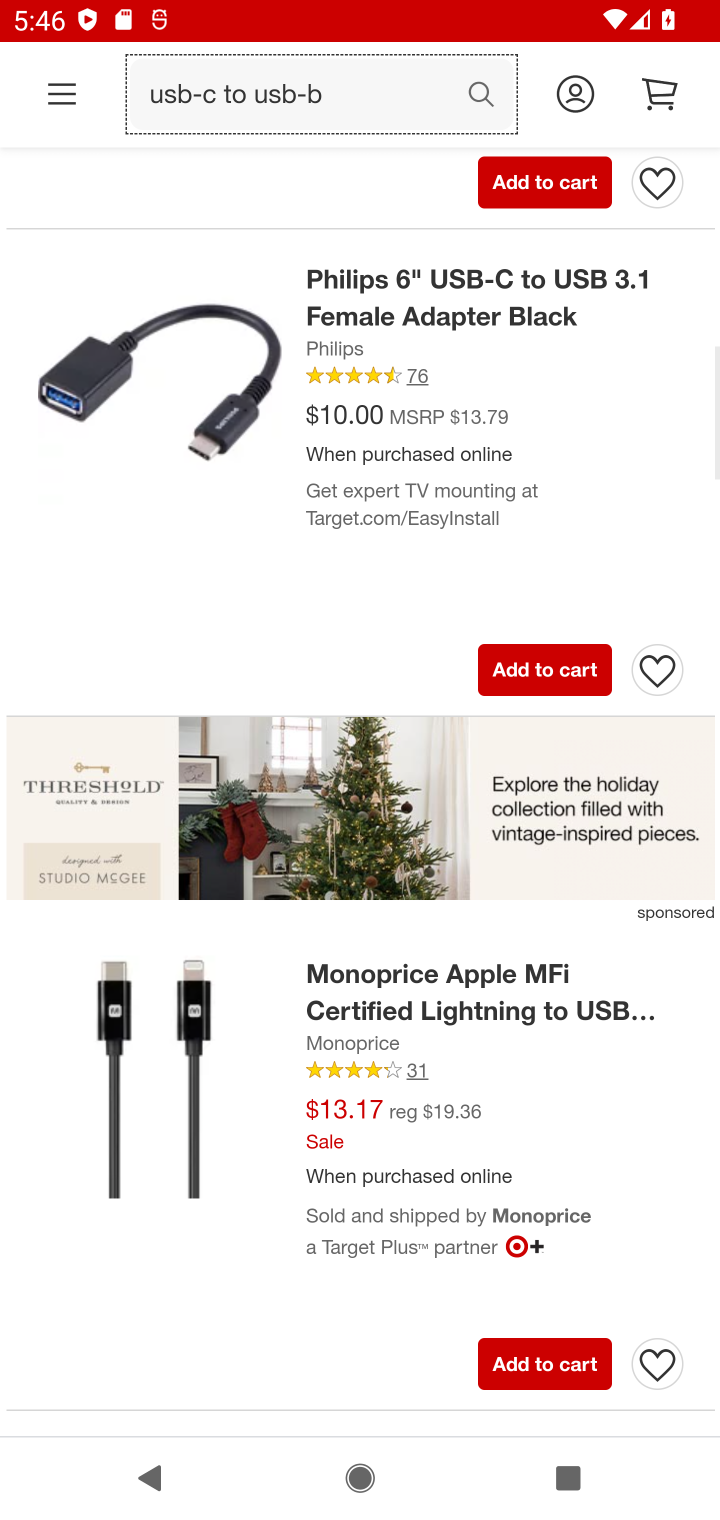
Step 27: drag from (494, 1023) to (445, 29)
Your task to perform on an android device: Clear the shopping cart on target.com. Search for usb-c to usb-b on target.com, select the first entry, add it to the cart, then select checkout. Image 28: 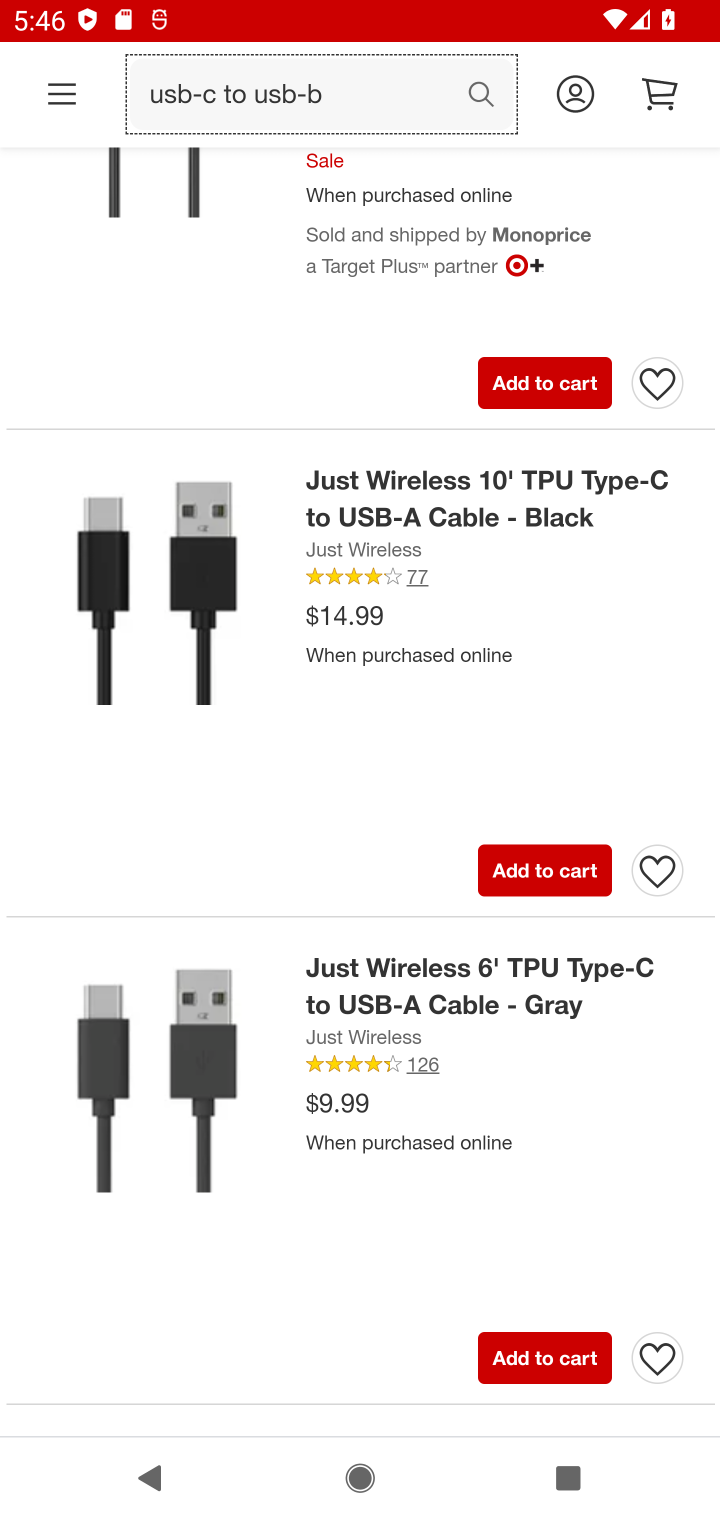
Step 28: drag from (474, 1001) to (468, 112)
Your task to perform on an android device: Clear the shopping cart on target.com. Search for usb-c to usb-b on target.com, select the first entry, add it to the cart, then select checkout. Image 29: 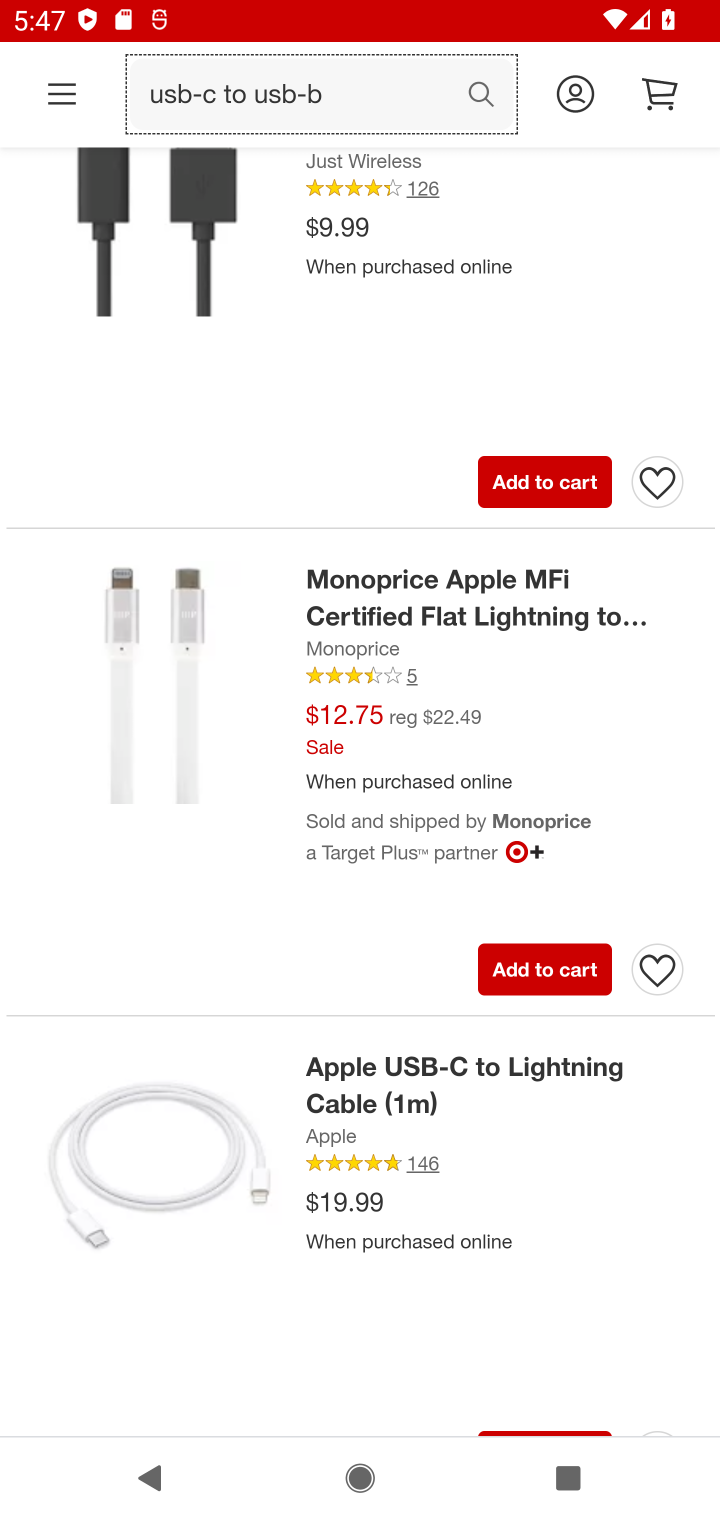
Step 29: click (417, 627)
Your task to perform on an android device: Clear the shopping cart on target.com. Search for usb-c to usb-b on target.com, select the first entry, add it to the cart, then select checkout. Image 30: 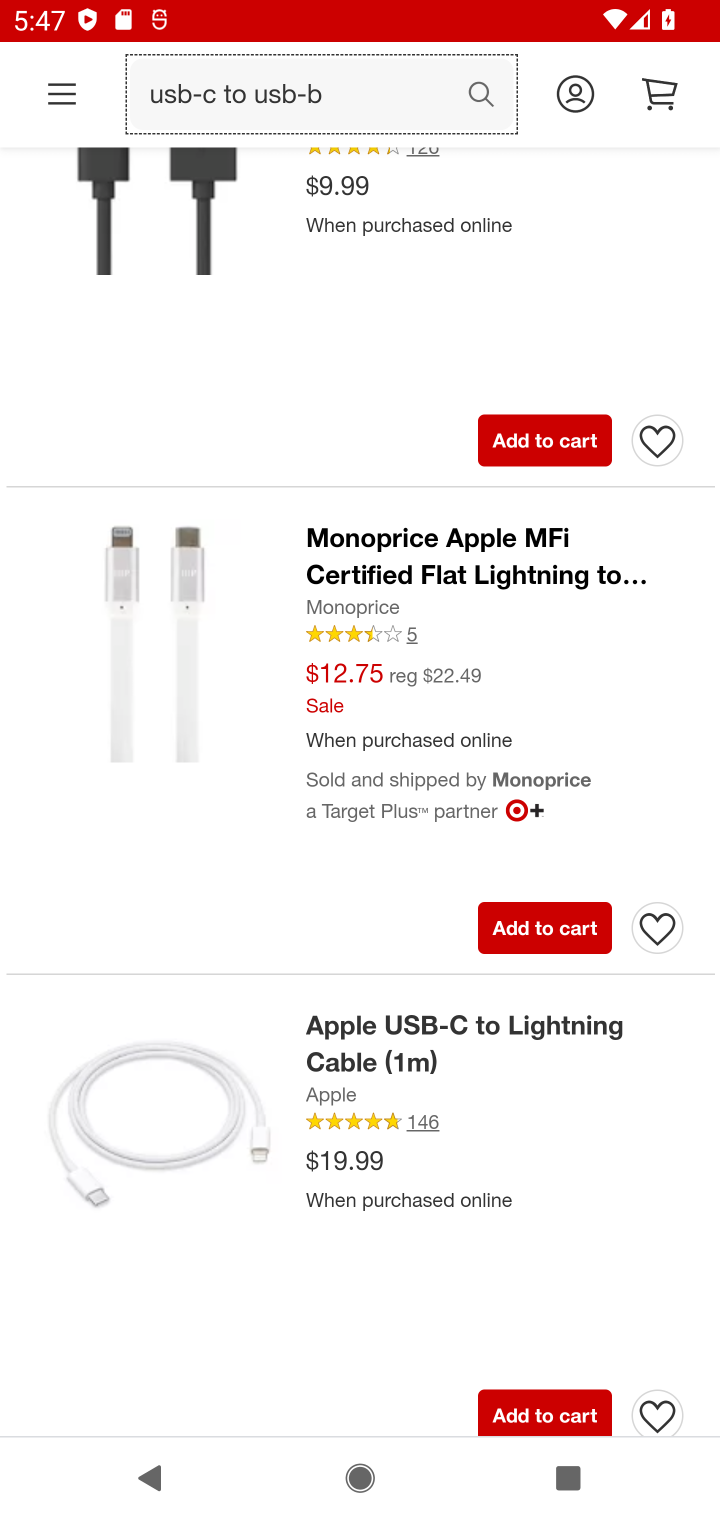
Step 30: task complete